Your task to perform on an android device: View the shopping cart on newegg. Search for "razer deathadder" on newegg, select the first entry, and add it to the cart. Image 0: 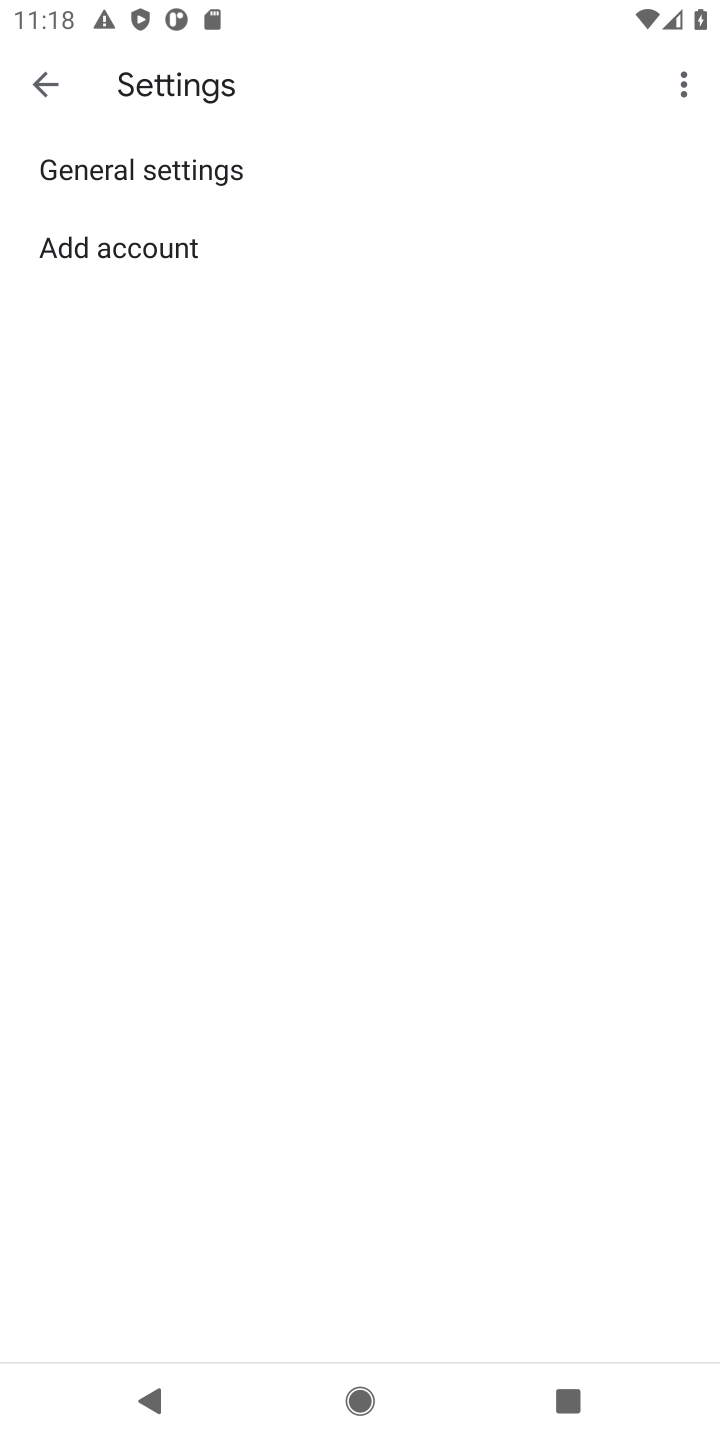
Step 0: press home button
Your task to perform on an android device: View the shopping cart on newegg. Search for "razer deathadder" on newegg, select the first entry, and add it to the cart. Image 1: 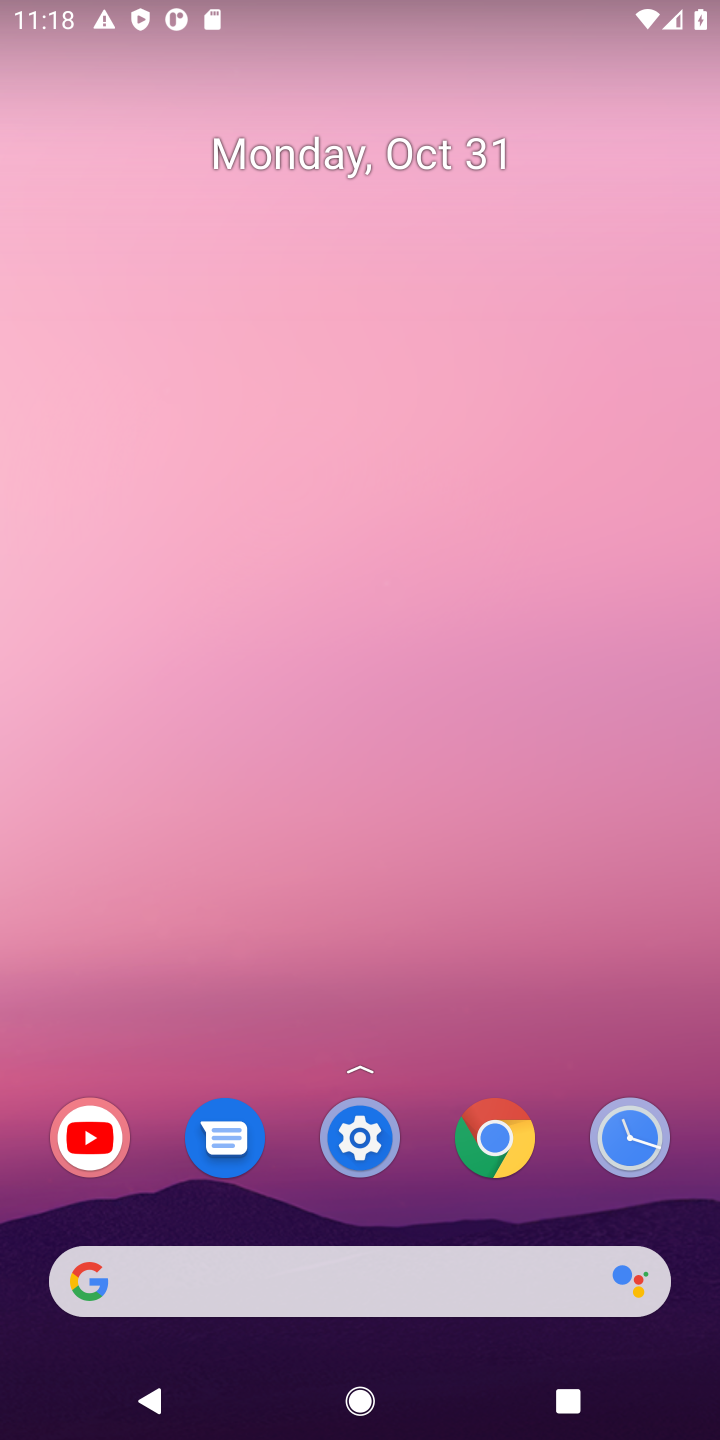
Step 1: click (508, 1138)
Your task to perform on an android device: View the shopping cart on newegg. Search for "razer deathadder" on newegg, select the first entry, and add it to the cart. Image 2: 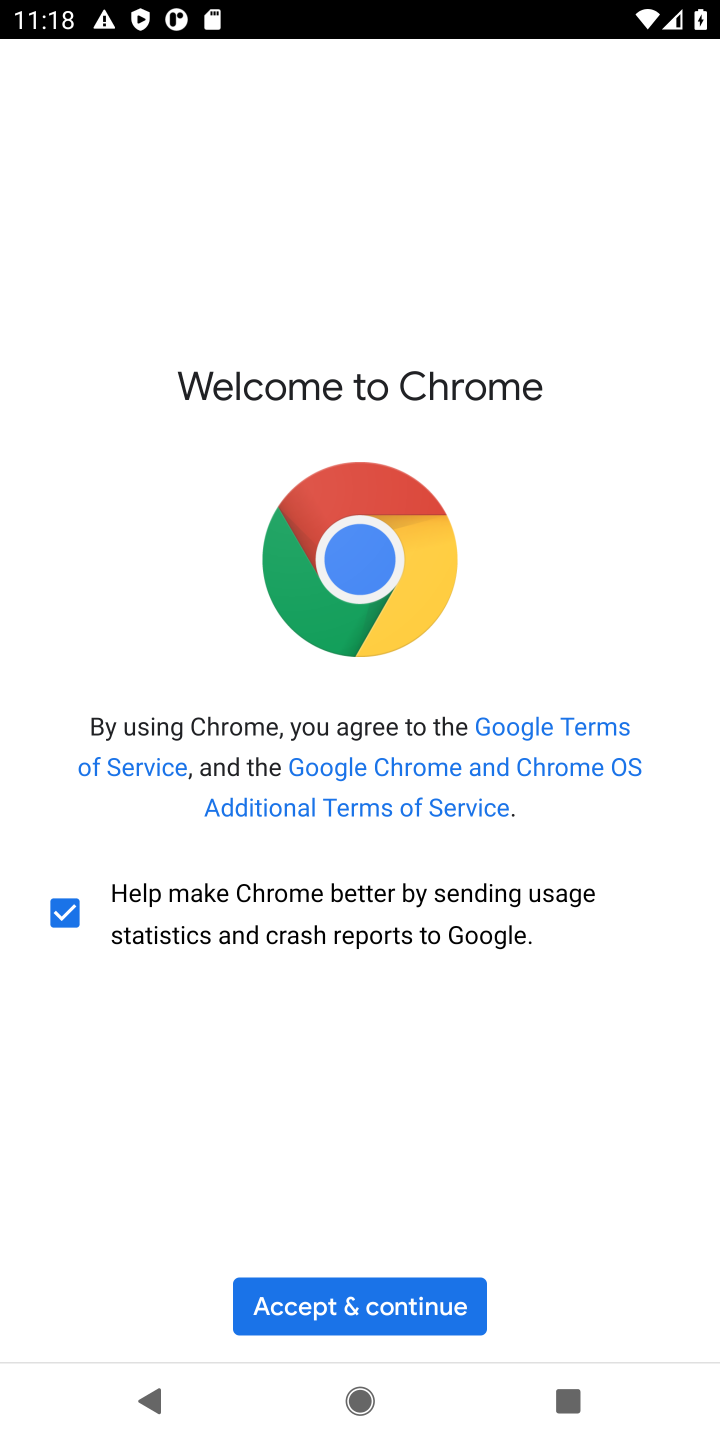
Step 2: click (410, 1312)
Your task to perform on an android device: View the shopping cart on newegg. Search for "razer deathadder" on newegg, select the first entry, and add it to the cart. Image 3: 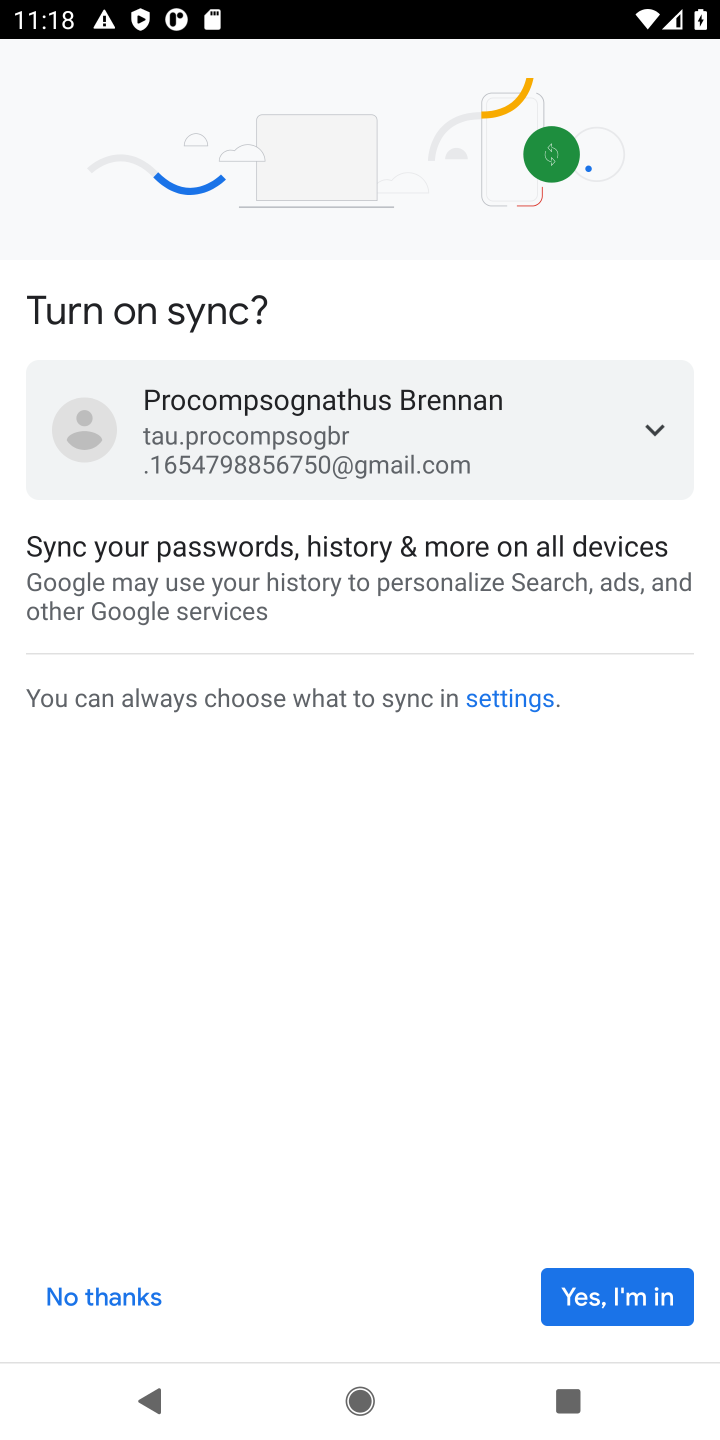
Step 3: click (623, 1296)
Your task to perform on an android device: View the shopping cart on newegg. Search for "razer deathadder" on newegg, select the first entry, and add it to the cart. Image 4: 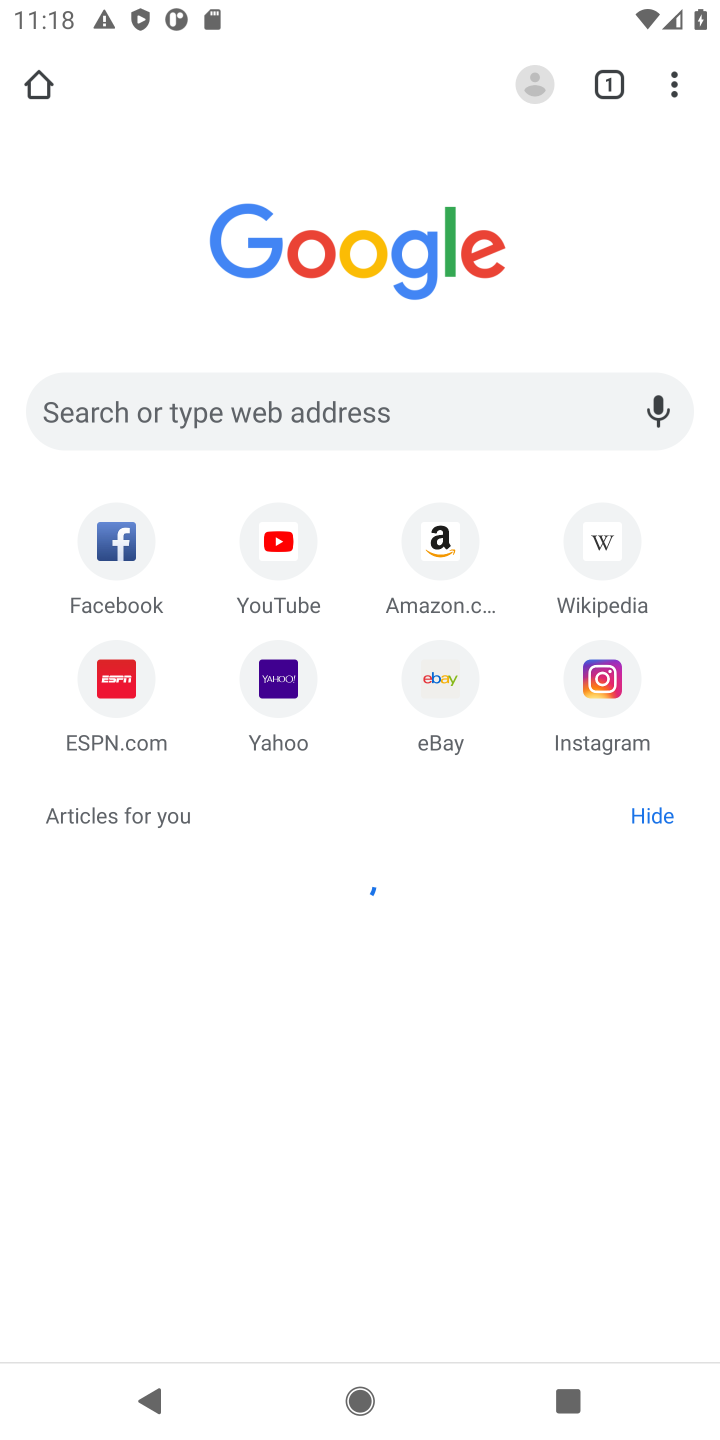
Step 4: click (459, 392)
Your task to perform on an android device: View the shopping cart on newegg. Search for "razer deathadder" on newegg, select the first entry, and add it to the cart. Image 5: 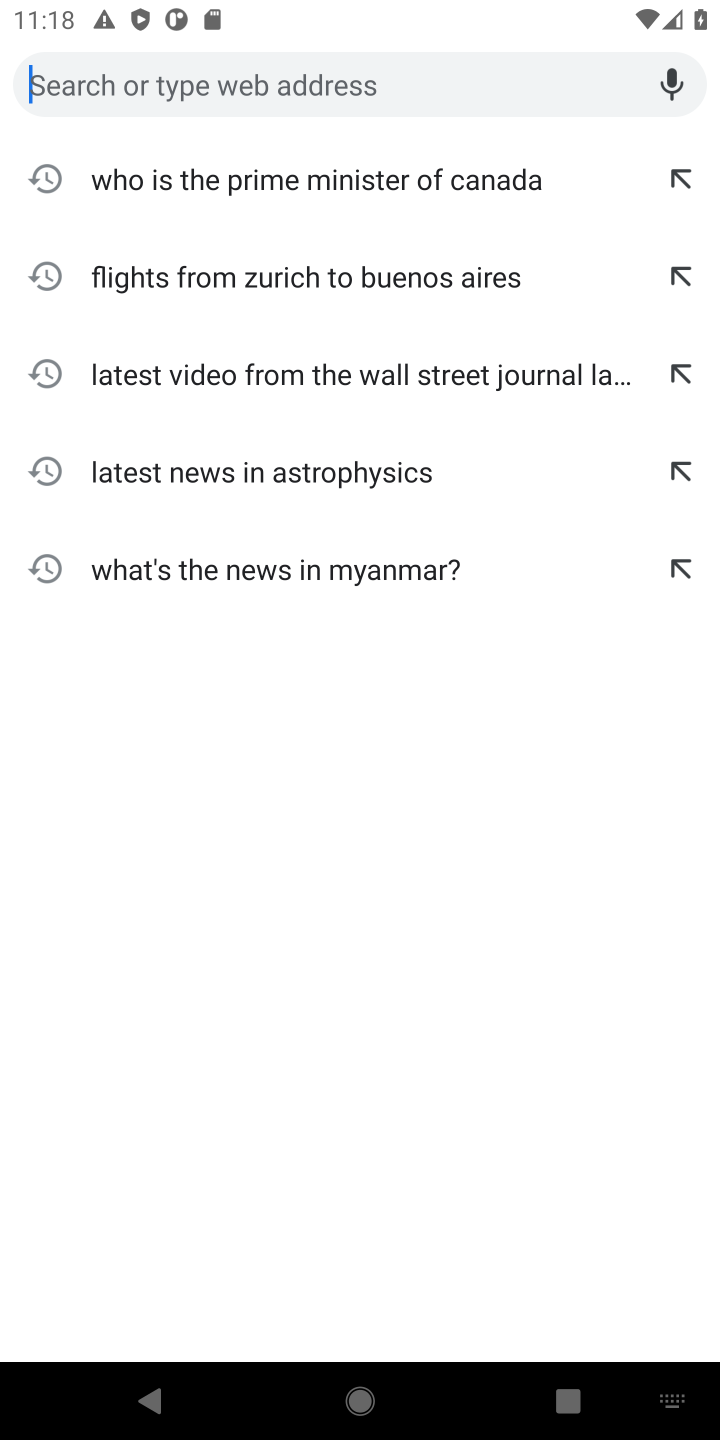
Step 5: press enter
Your task to perform on an android device: View the shopping cart on newegg. Search for "razer deathadder" on newegg, select the first entry, and add it to the cart. Image 6: 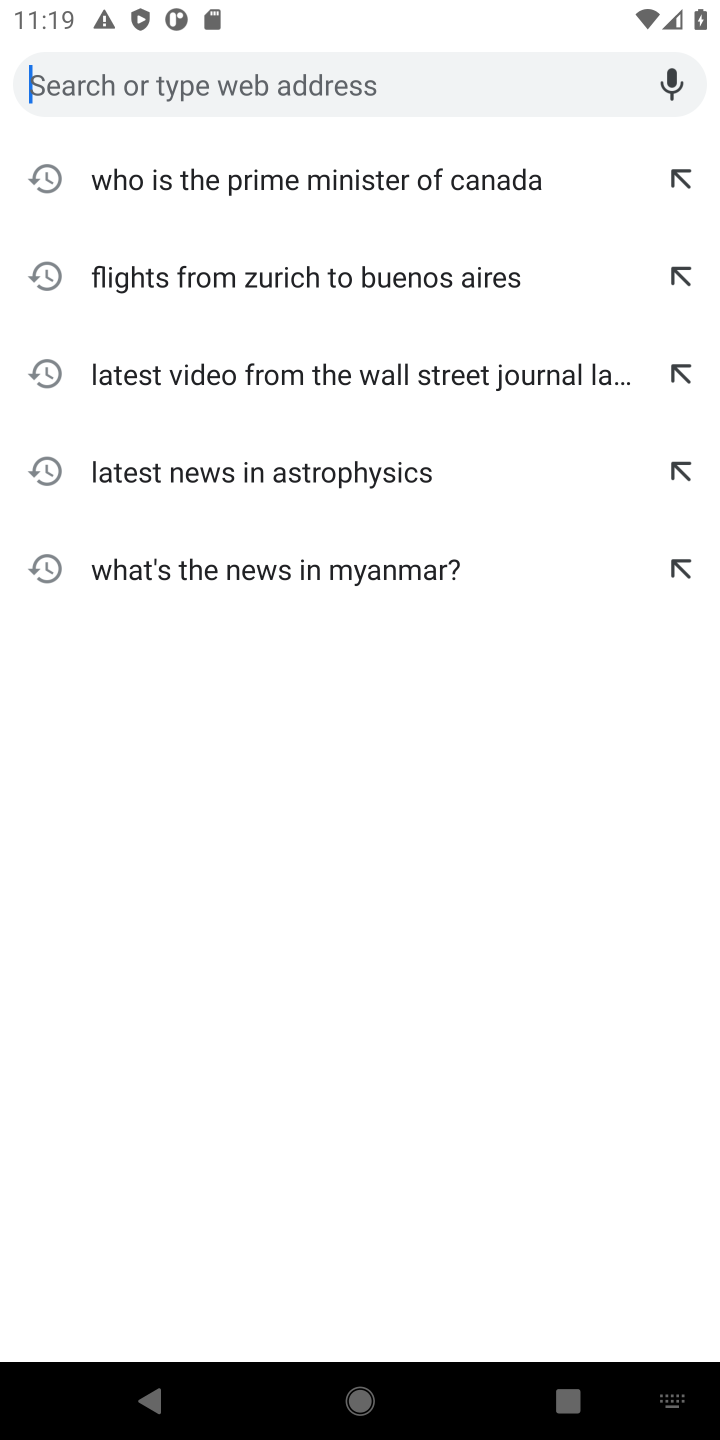
Step 6: type "newegg"
Your task to perform on an android device: View the shopping cart on newegg. Search for "razer deathadder" on newegg, select the first entry, and add it to the cart. Image 7: 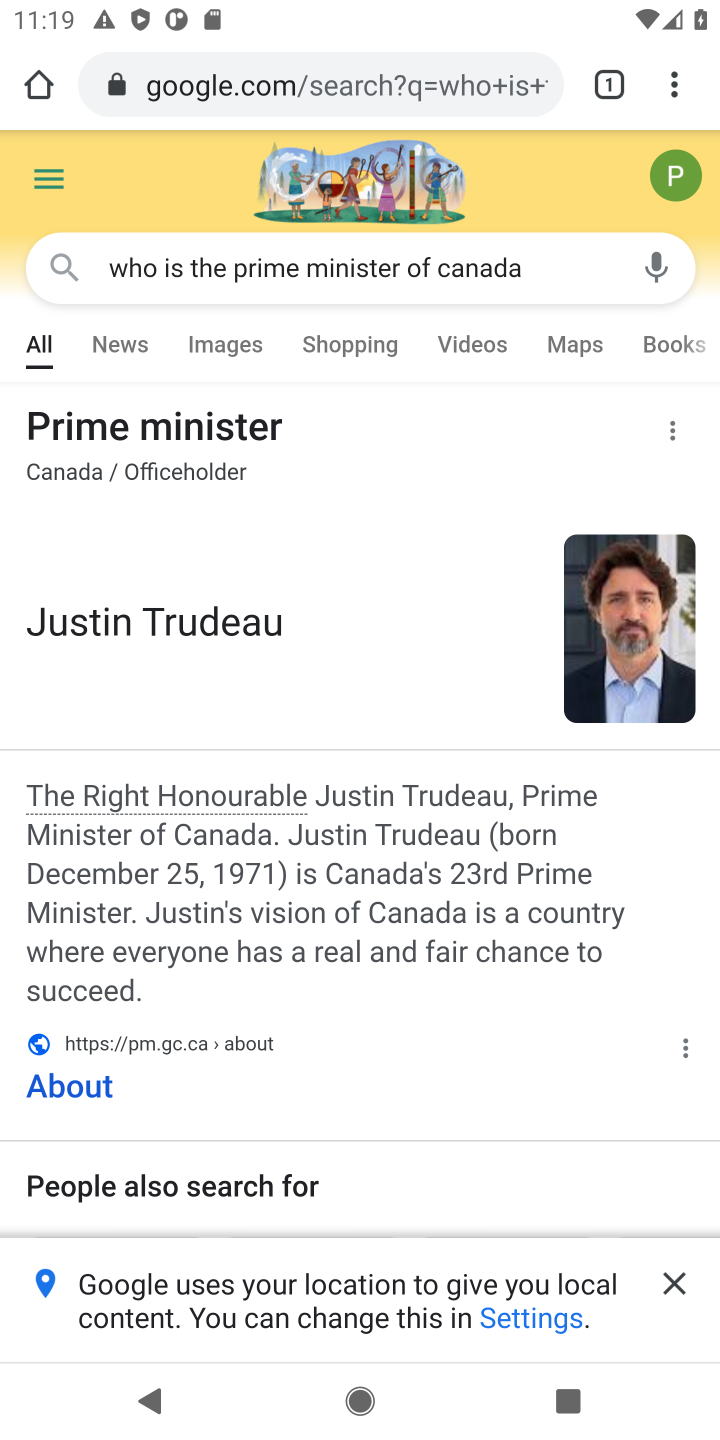
Step 7: click (414, 83)
Your task to perform on an android device: View the shopping cart on newegg. Search for "razer deathadder" on newegg, select the first entry, and add it to the cart. Image 8: 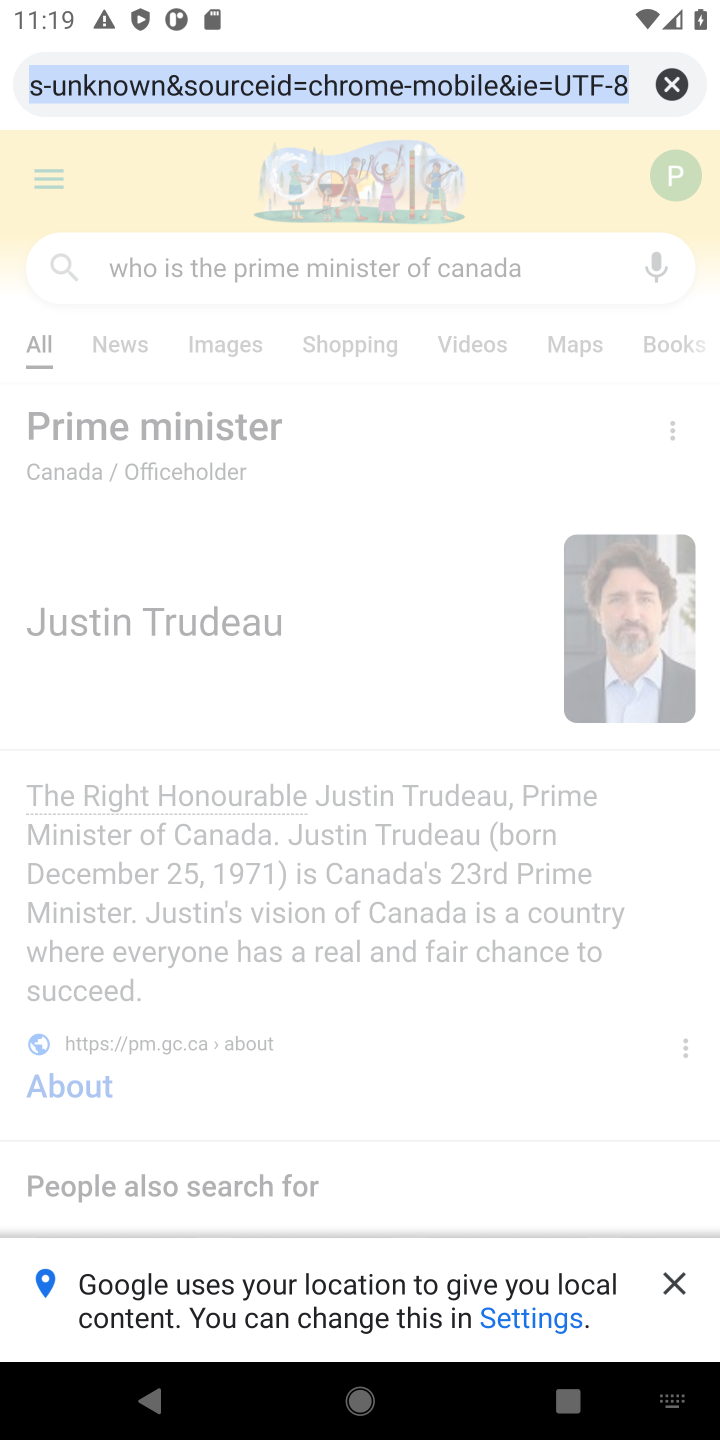
Step 8: click (666, 88)
Your task to perform on an android device: View the shopping cart on newegg. Search for "razer deathadder" on newegg, select the first entry, and add it to the cart. Image 9: 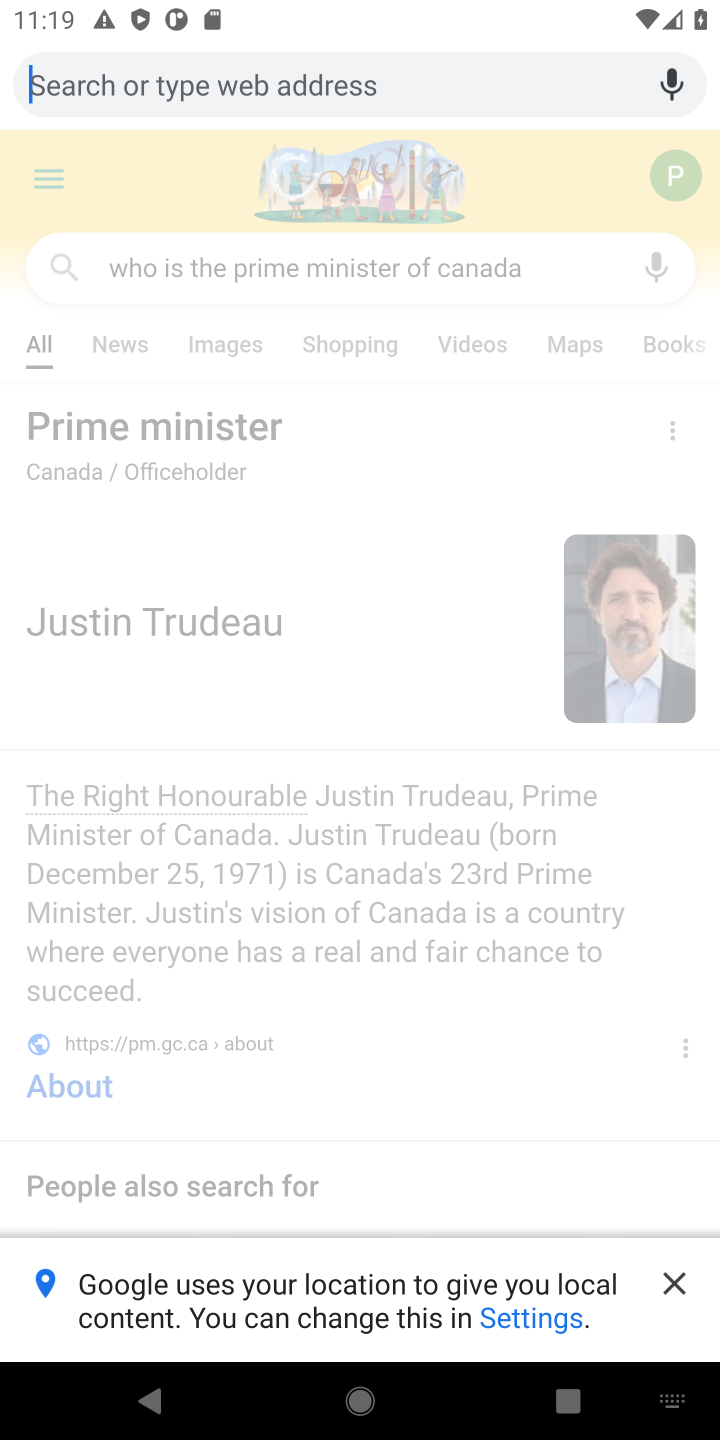
Step 9: type "newegg"
Your task to perform on an android device: View the shopping cart on newegg. Search for "razer deathadder" on newegg, select the first entry, and add it to the cart. Image 10: 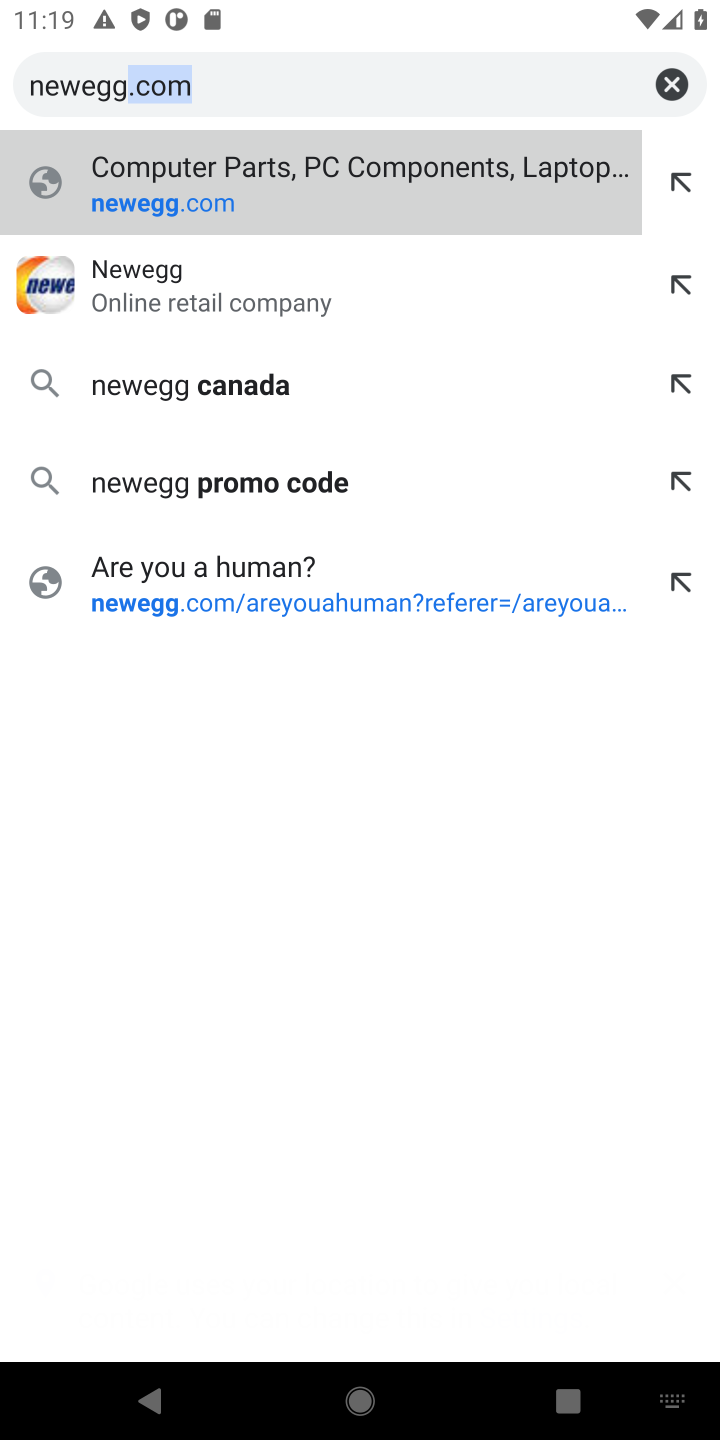
Step 10: press enter
Your task to perform on an android device: View the shopping cart on newegg. Search for "razer deathadder" on newegg, select the first entry, and add it to the cart. Image 11: 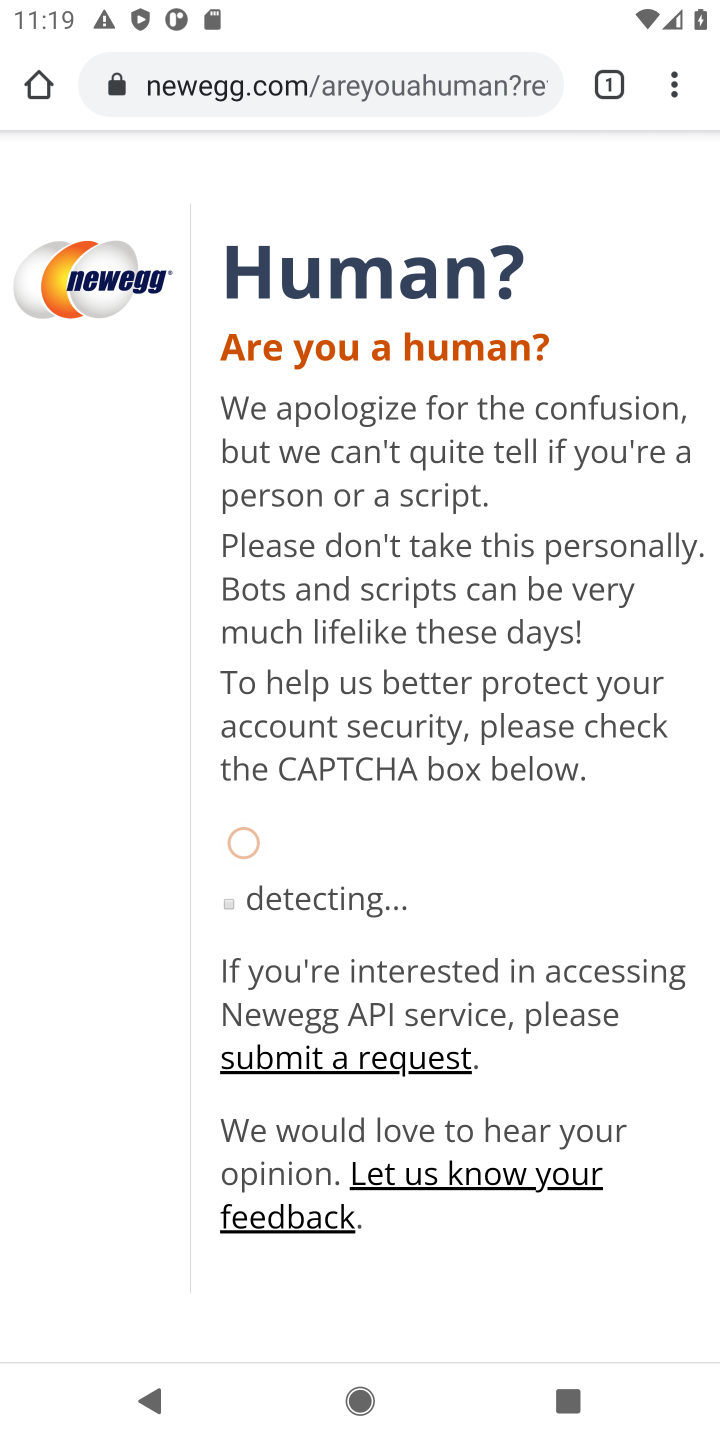
Step 11: click (268, 90)
Your task to perform on an android device: View the shopping cart on newegg. Search for "razer deathadder" on newegg, select the first entry, and add it to the cart. Image 12: 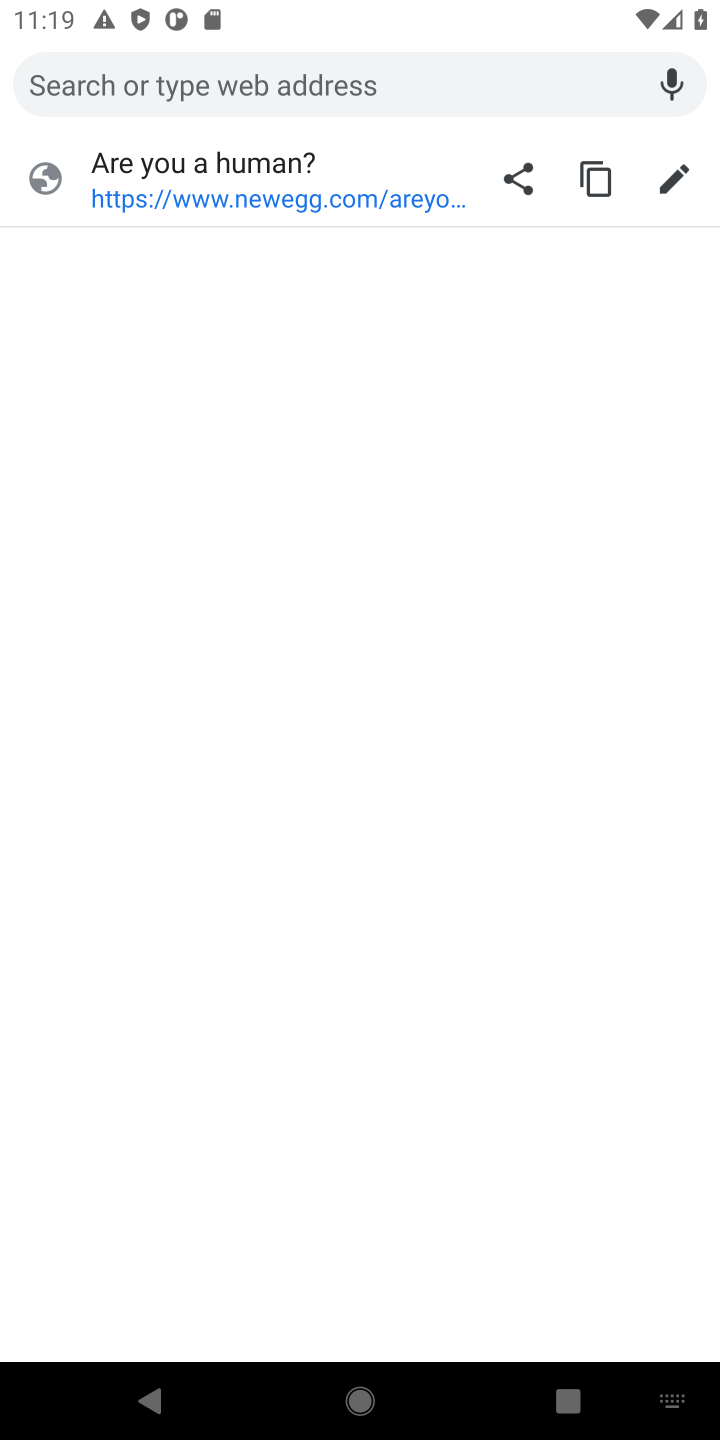
Step 12: press enter
Your task to perform on an android device: View the shopping cart on newegg. Search for "razer deathadder" on newegg, select the first entry, and add it to the cart. Image 13: 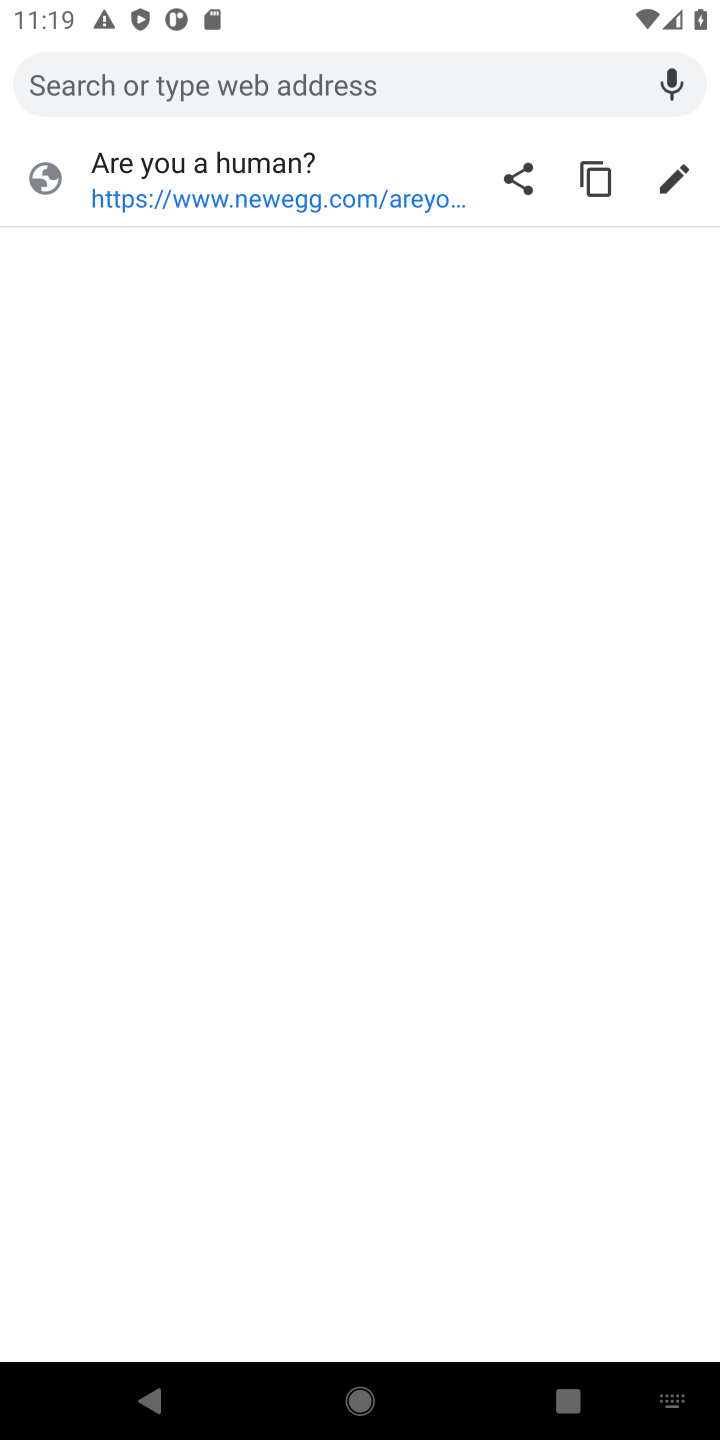
Step 13: type "newegg"
Your task to perform on an android device: View the shopping cart on newegg. Search for "razer deathadder" on newegg, select the first entry, and add it to the cart. Image 14: 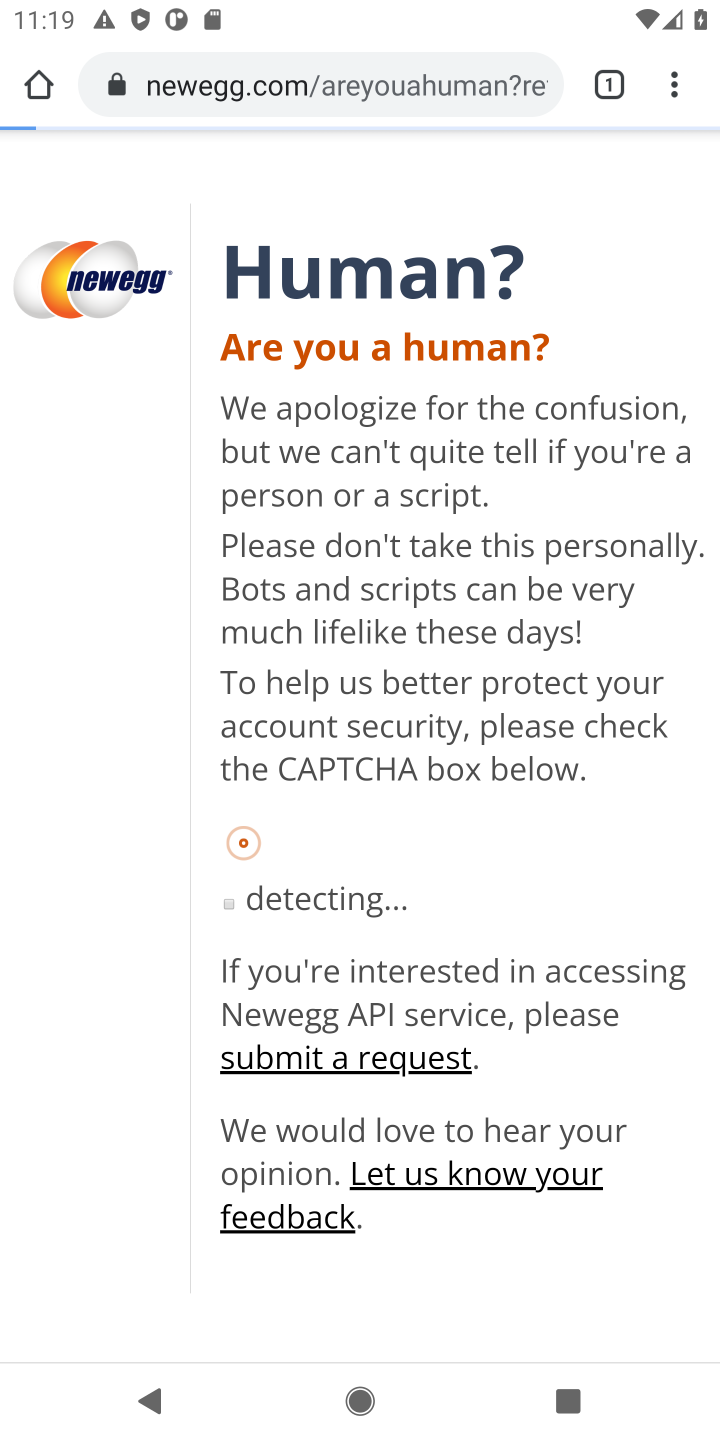
Step 14: click (48, 85)
Your task to perform on an android device: View the shopping cart on newegg. Search for "razer deathadder" on newegg, select the first entry, and add it to the cart. Image 15: 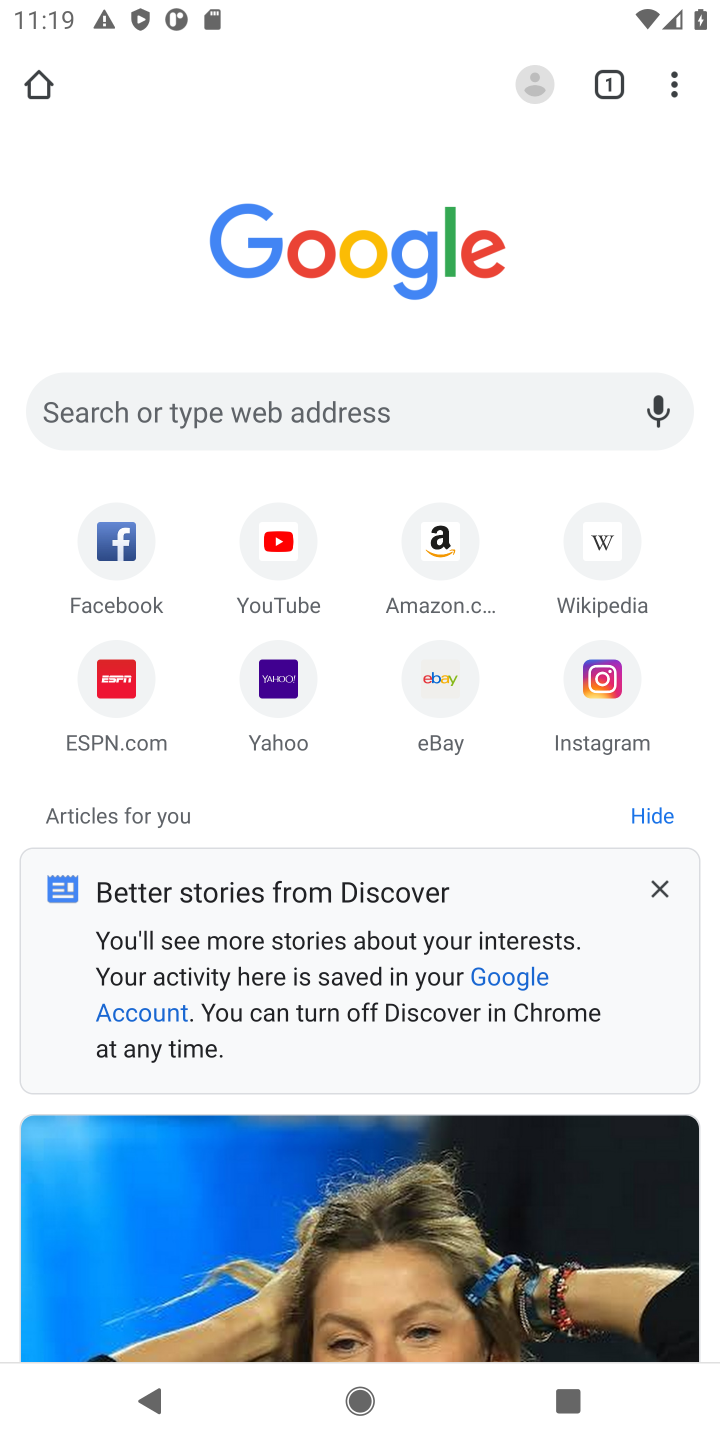
Step 15: click (430, 398)
Your task to perform on an android device: View the shopping cart on newegg. Search for "razer deathadder" on newegg, select the first entry, and add it to the cart. Image 16: 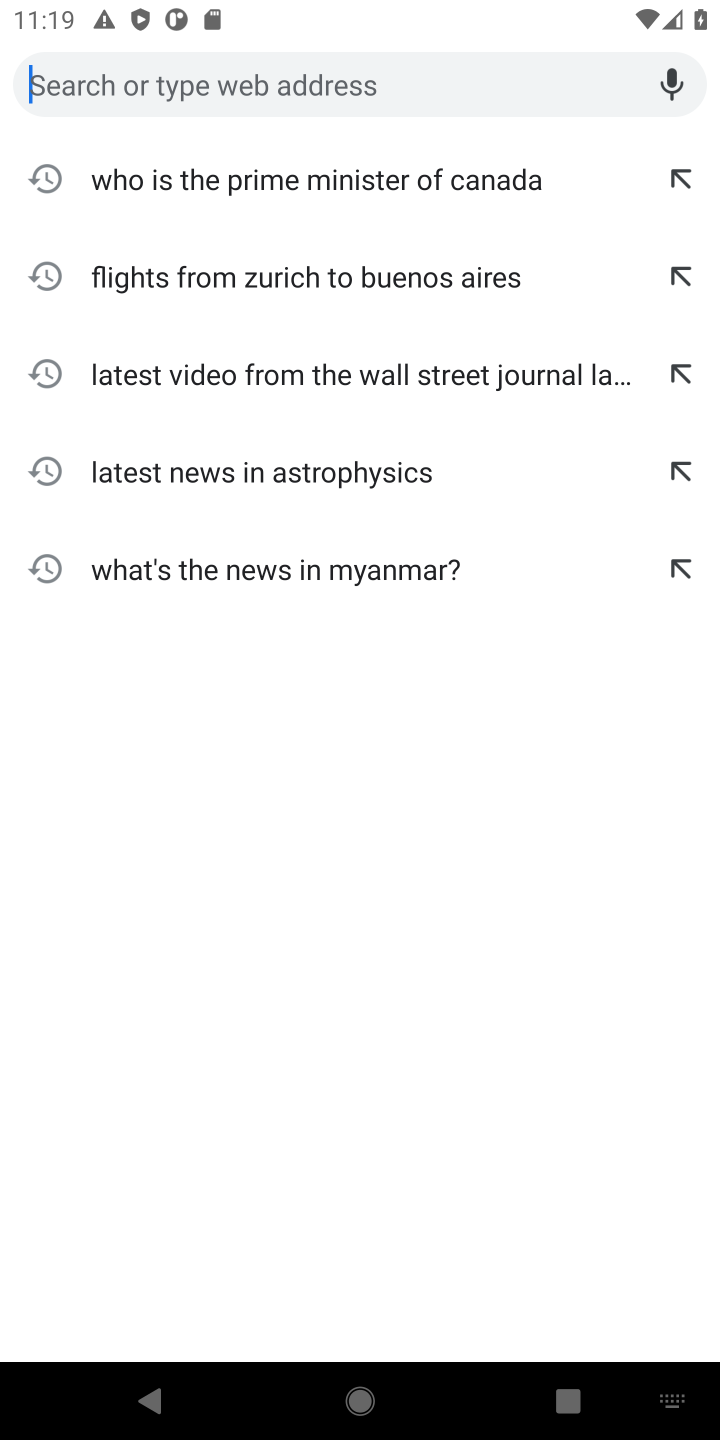
Step 16: type "newegg"
Your task to perform on an android device: View the shopping cart on newegg. Search for "razer deathadder" on newegg, select the first entry, and add it to the cart. Image 17: 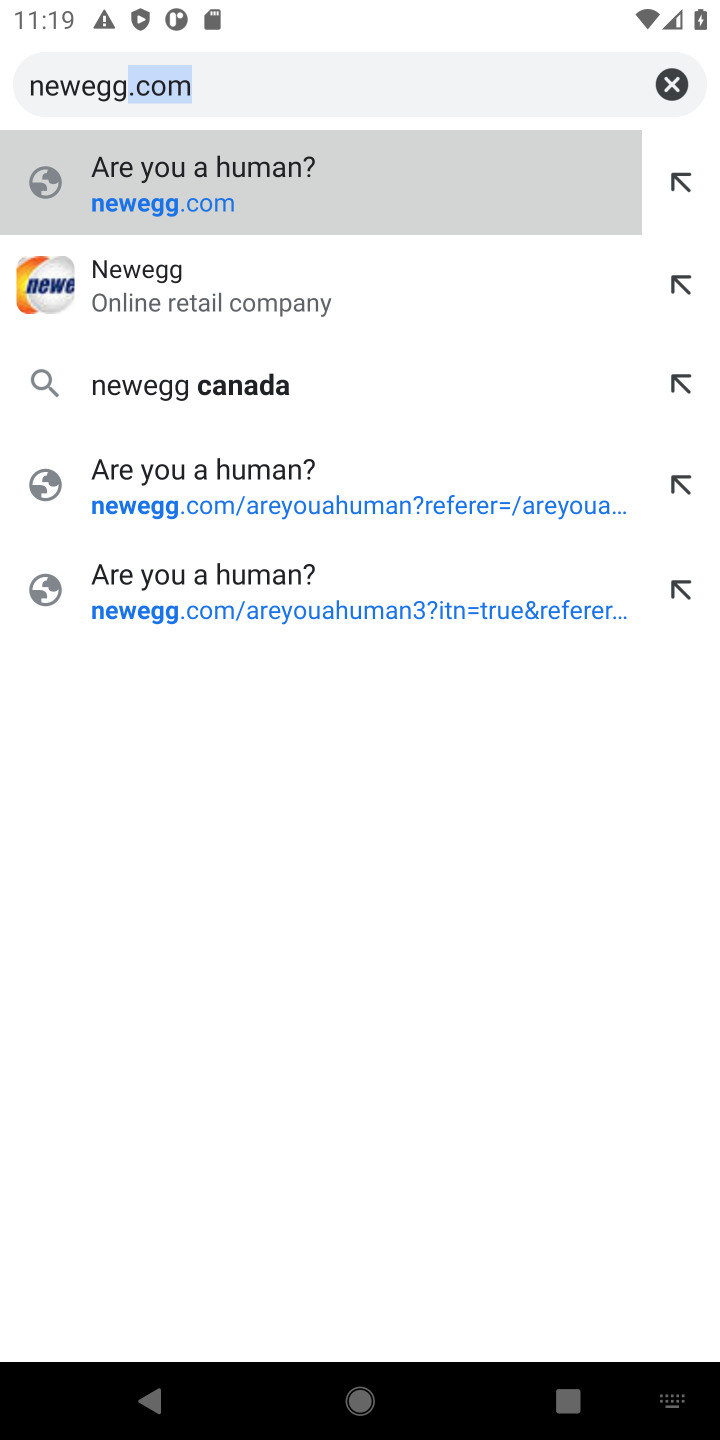
Step 17: press enter
Your task to perform on an android device: View the shopping cart on newegg. Search for "razer deathadder" on newegg, select the first entry, and add it to the cart. Image 18: 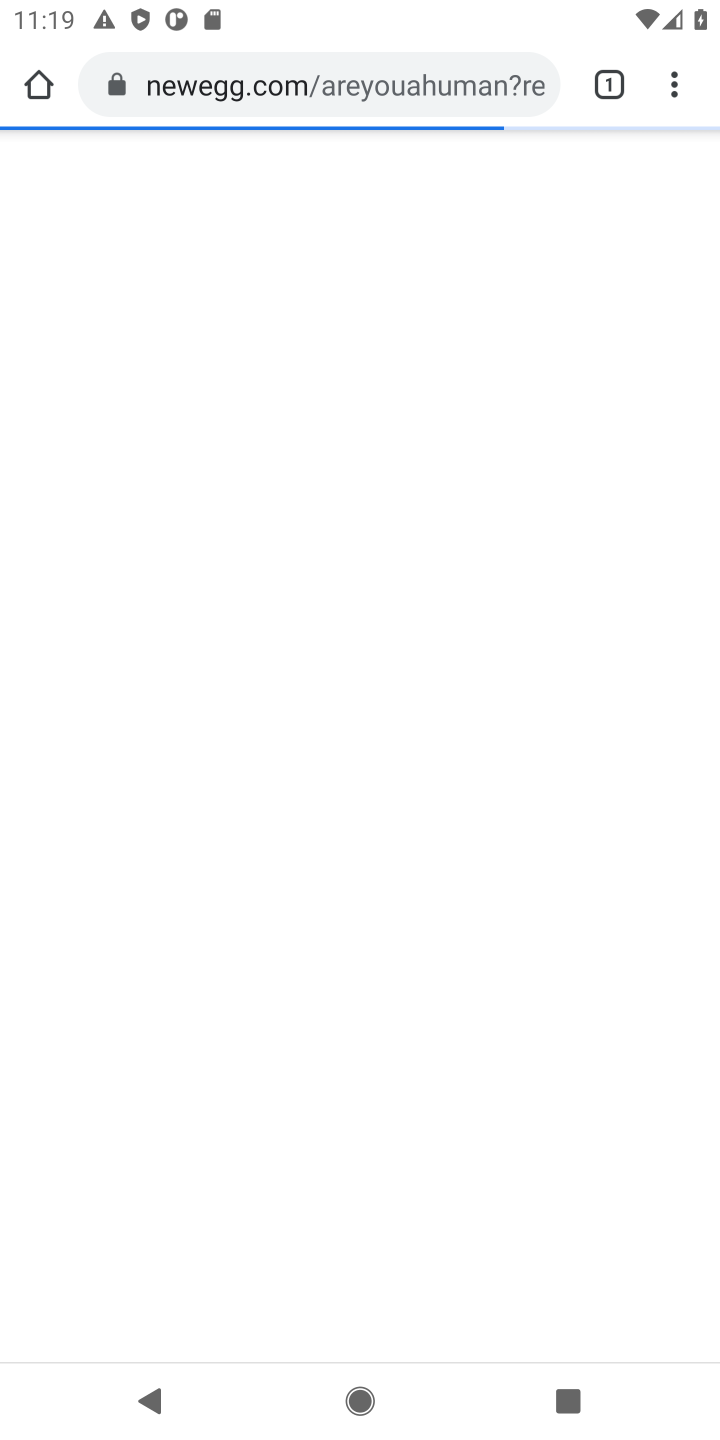
Step 18: click (175, 290)
Your task to perform on an android device: View the shopping cart on newegg. Search for "razer deathadder" on newegg, select the first entry, and add it to the cart. Image 19: 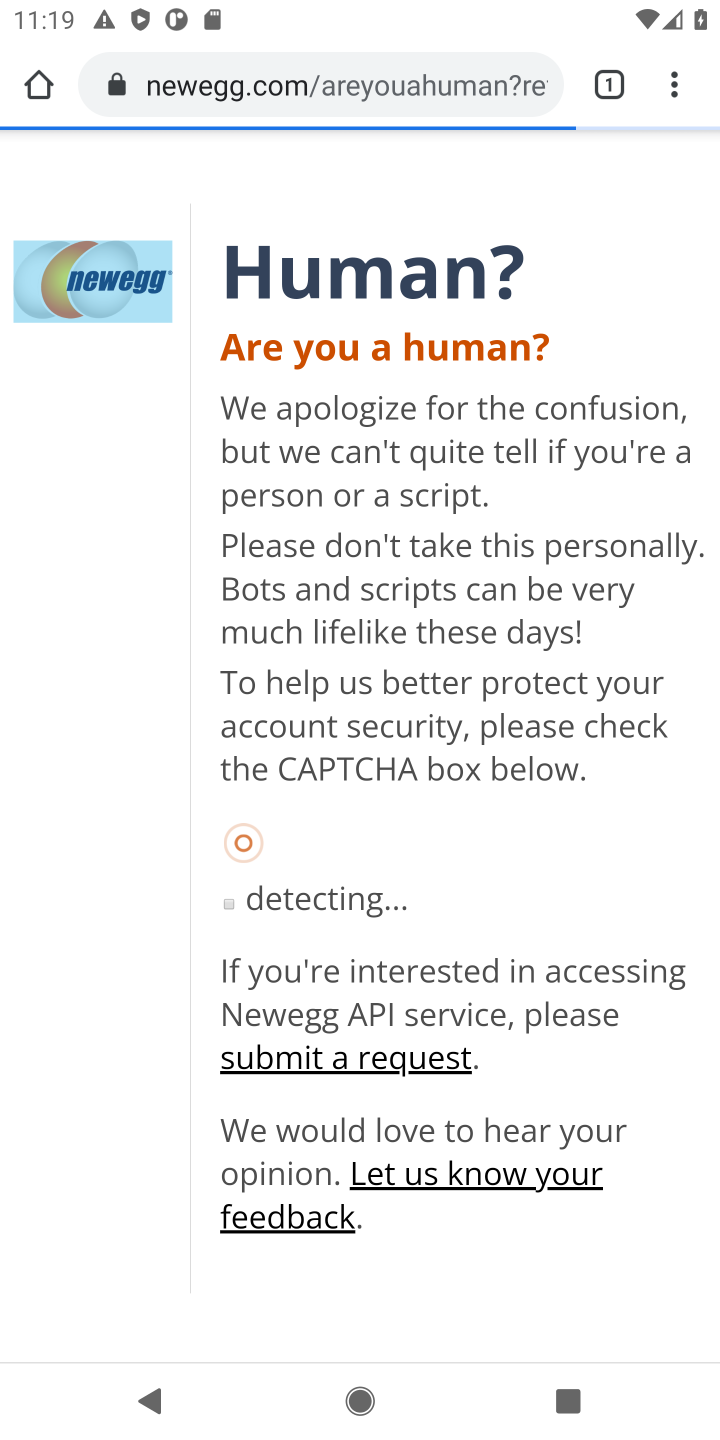
Step 19: drag from (382, 387) to (408, 236)
Your task to perform on an android device: View the shopping cart on newegg. Search for "razer deathadder" on newegg, select the first entry, and add it to the cart. Image 20: 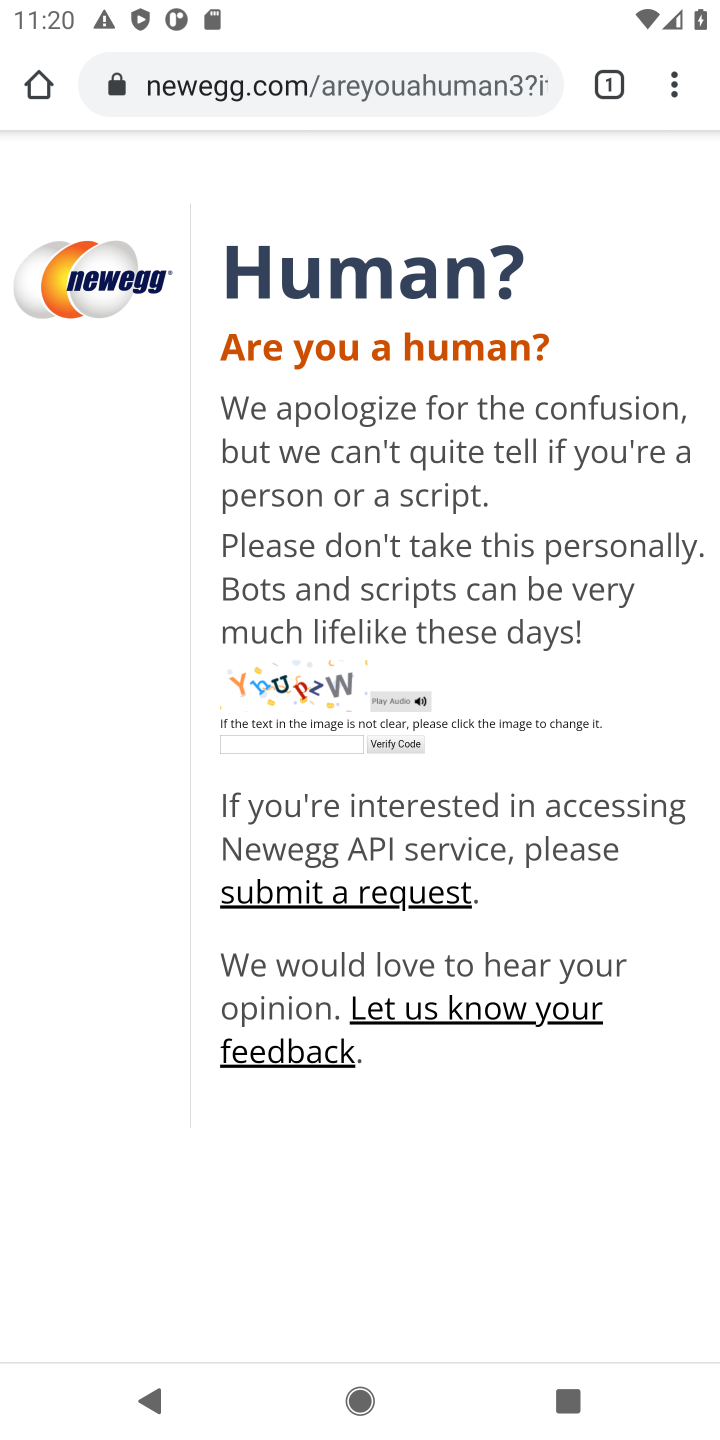
Step 20: click (456, 88)
Your task to perform on an android device: View the shopping cart on newegg. Search for "razer deathadder" on newegg, select the first entry, and add it to the cart. Image 21: 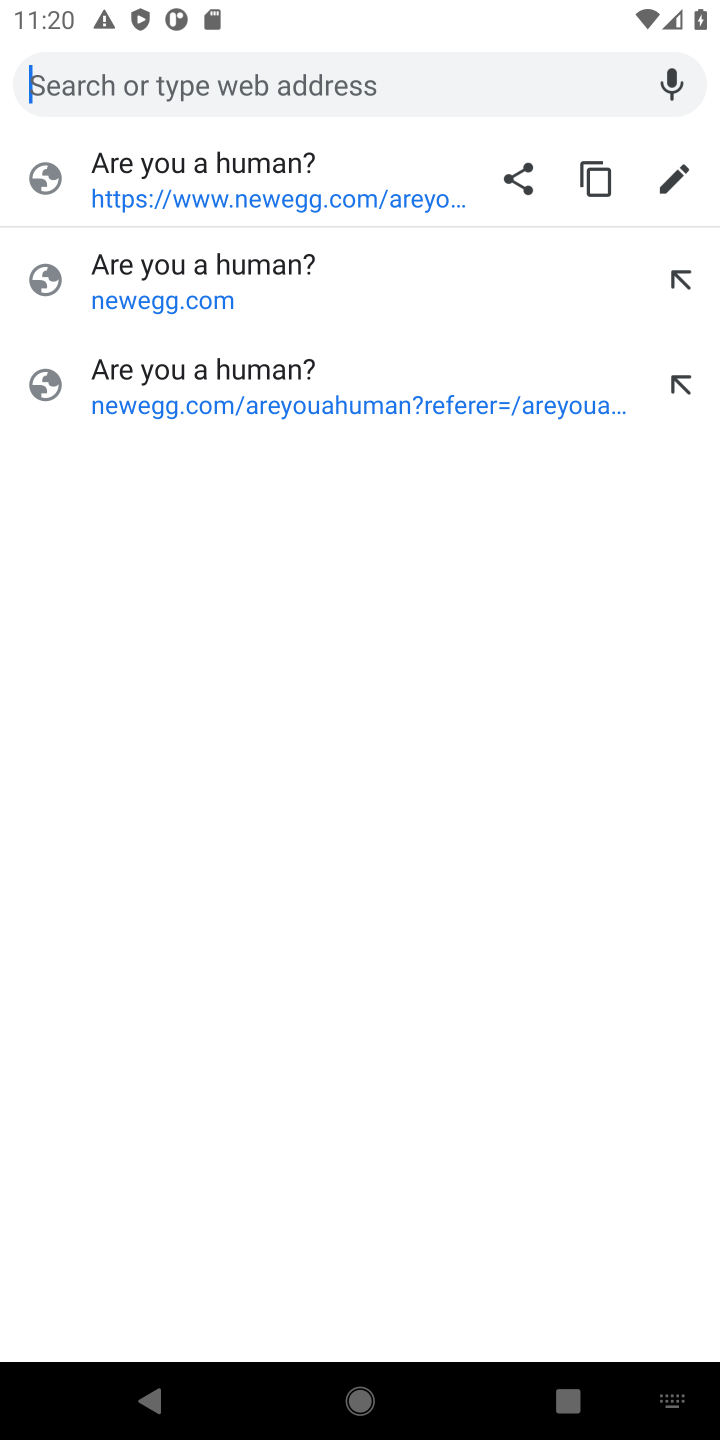
Step 21: type "newegg"
Your task to perform on an android device: View the shopping cart on newegg. Search for "razer deathadder" on newegg, select the first entry, and add it to the cart. Image 22: 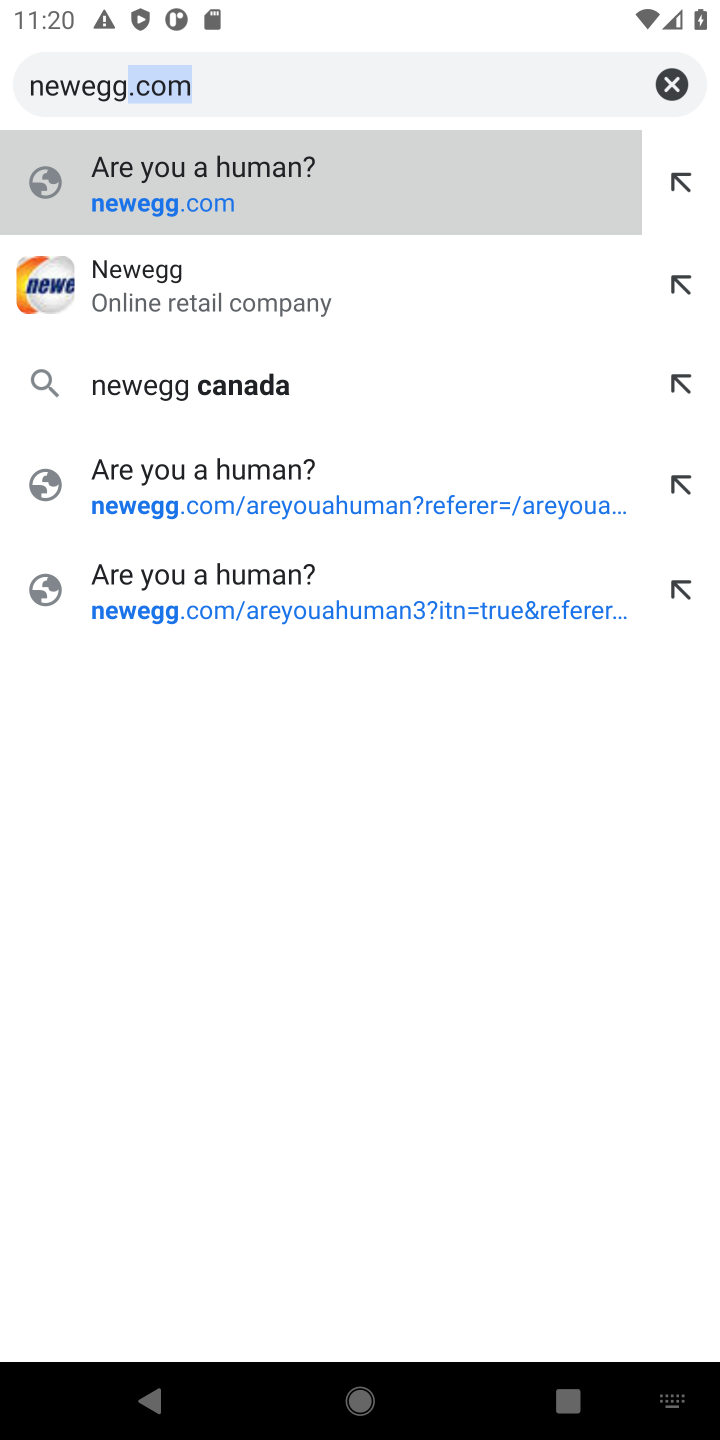
Step 22: press enter
Your task to perform on an android device: View the shopping cart on newegg. Search for "razer deathadder" on newegg, select the first entry, and add it to the cart. Image 23: 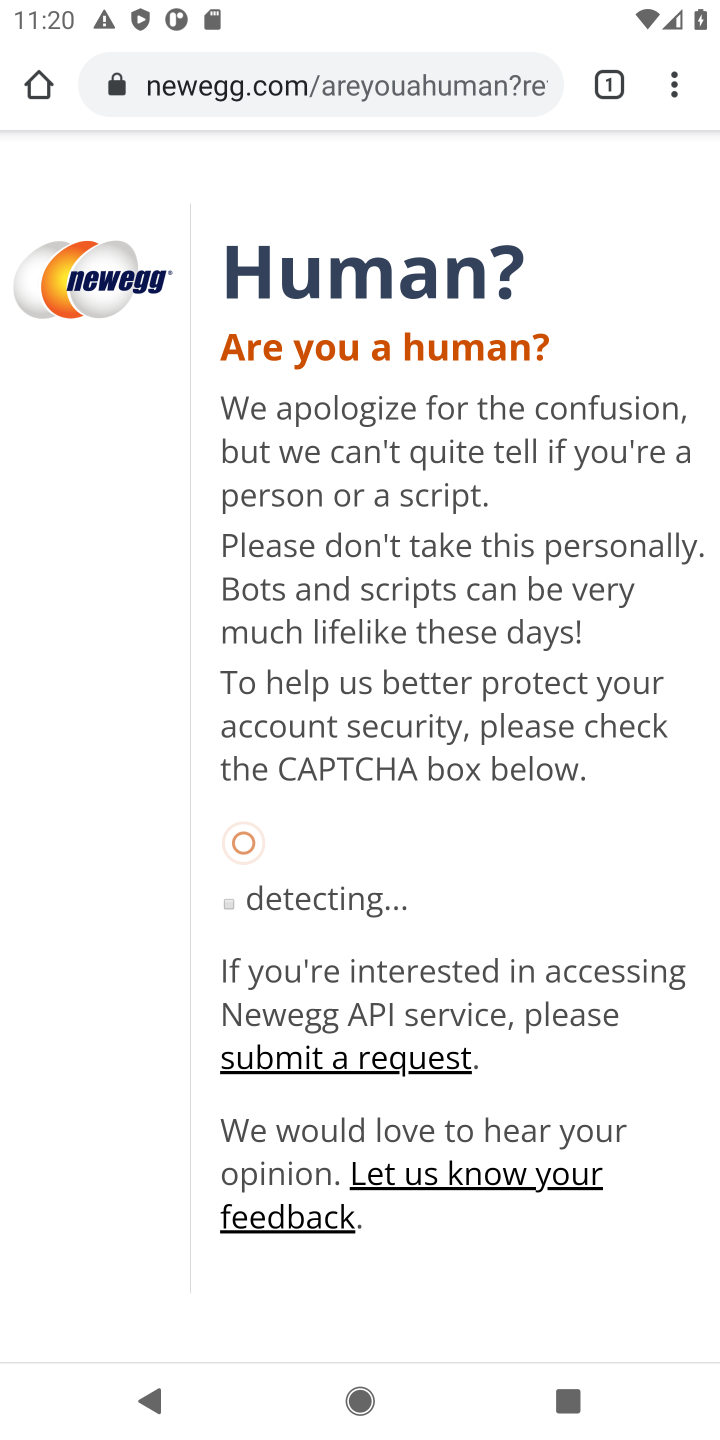
Step 23: click (422, 88)
Your task to perform on an android device: View the shopping cart on newegg. Search for "razer deathadder" on newegg, select the first entry, and add it to the cart. Image 24: 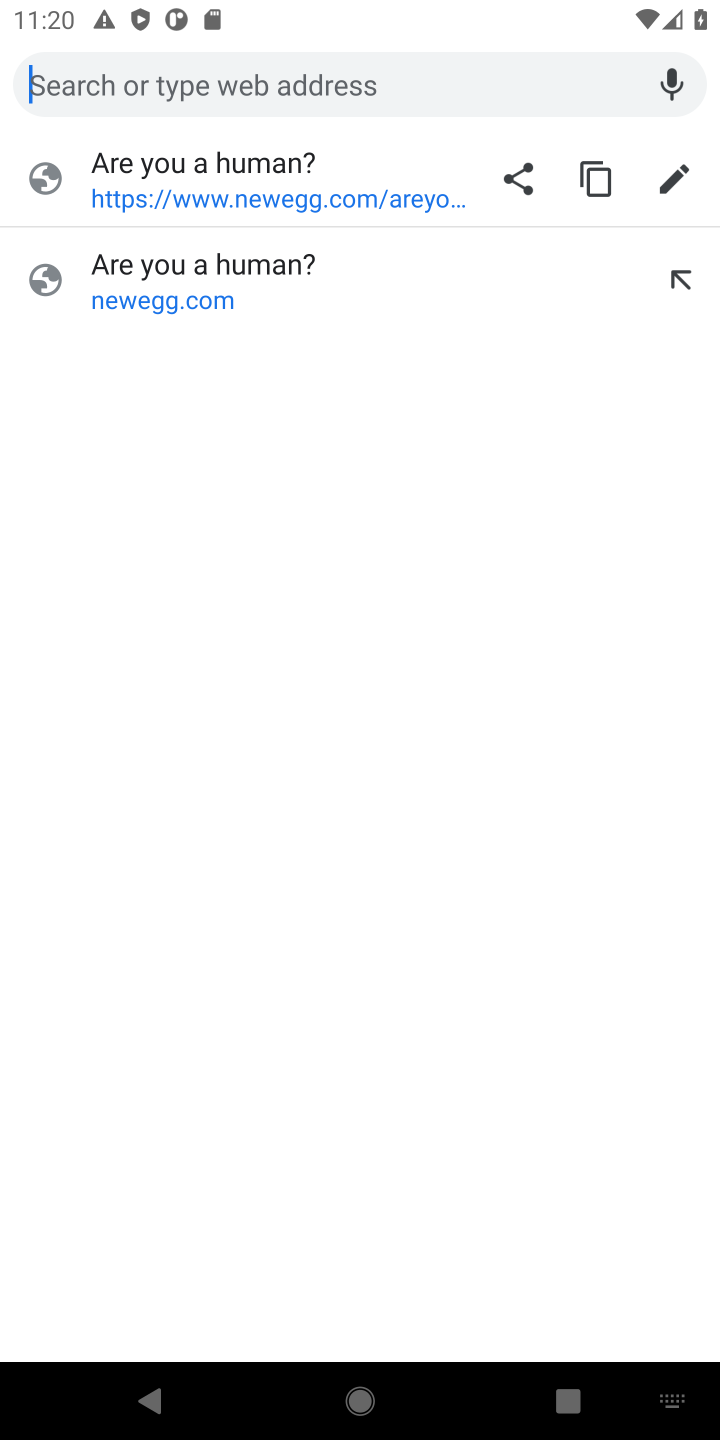
Step 24: type "newsegg"
Your task to perform on an android device: View the shopping cart on newegg. Search for "razer deathadder" on newegg, select the first entry, and add it to the cart. Image 25: 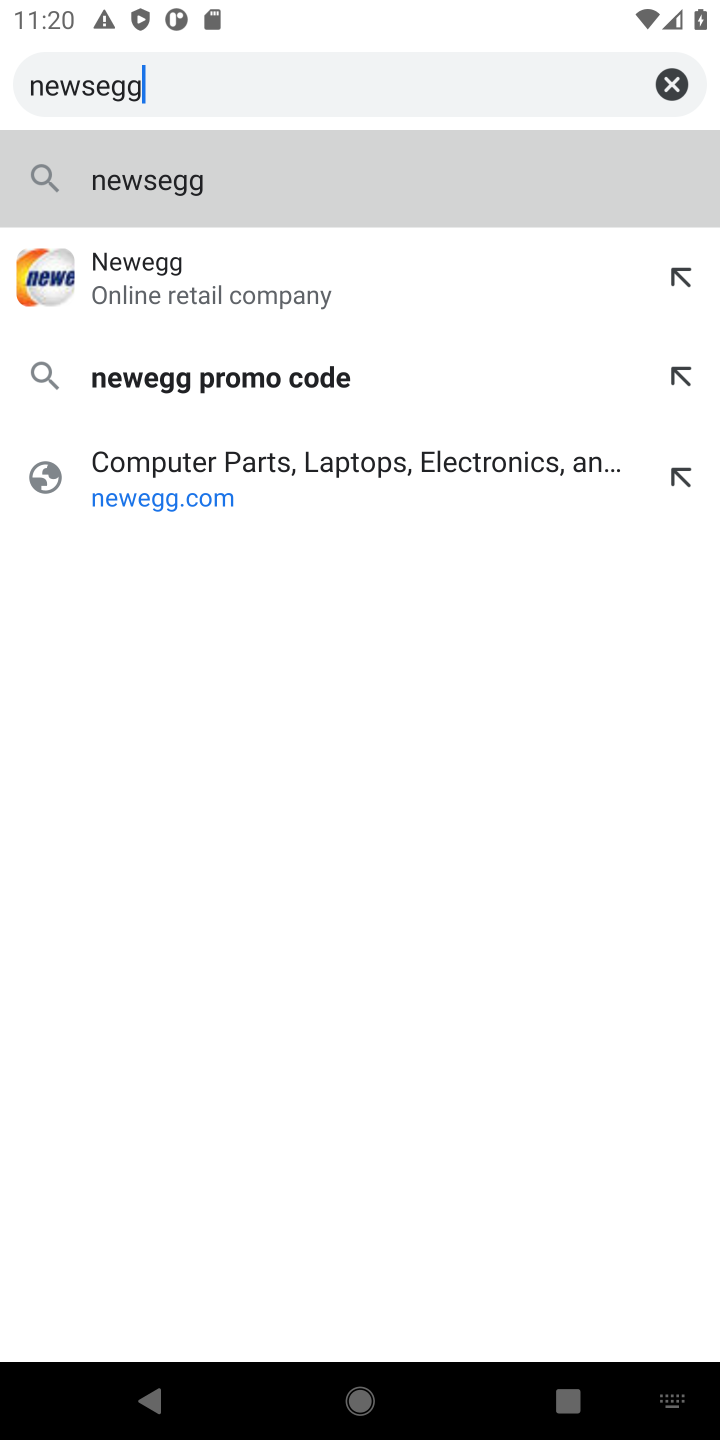
Step 25: click (210, 267)
Your task to perform on an android device: View the shopping cart on newegg. Search for "razer deathadder" on newegg, select the first entry, and add it to the cart. Image 26: 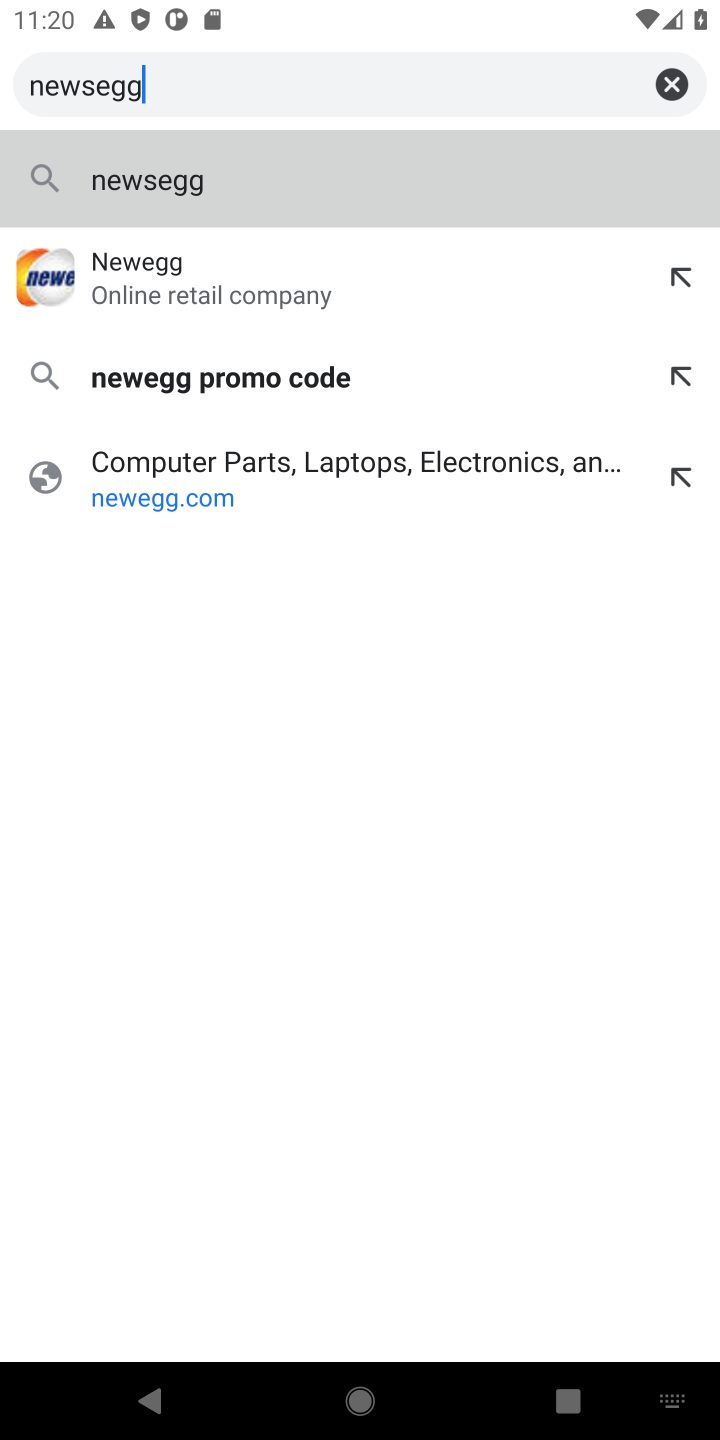
Step 26: click (144, 269)
Your task to perform on an android device: View the shopping cart on newegg. Search for "razer deathadder" on newegg, select the first entry, and add it to the cart. Image 27: 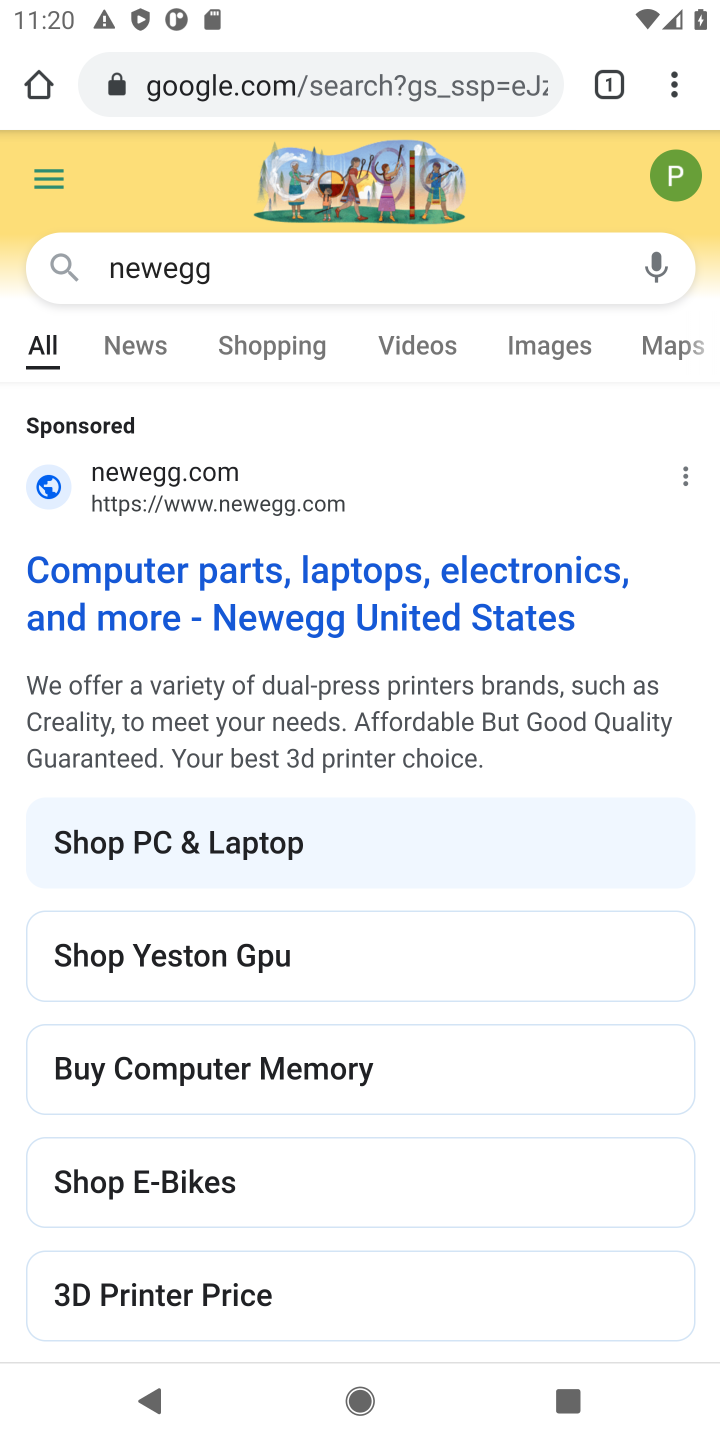
Step 27: drag from (384, 724) to (424, 219)
Your task to perform on an android device: View the shopping cart on newegg. Search for "razer deathadder" on newegg, select the first entry, and add it to the cart. Image 28: 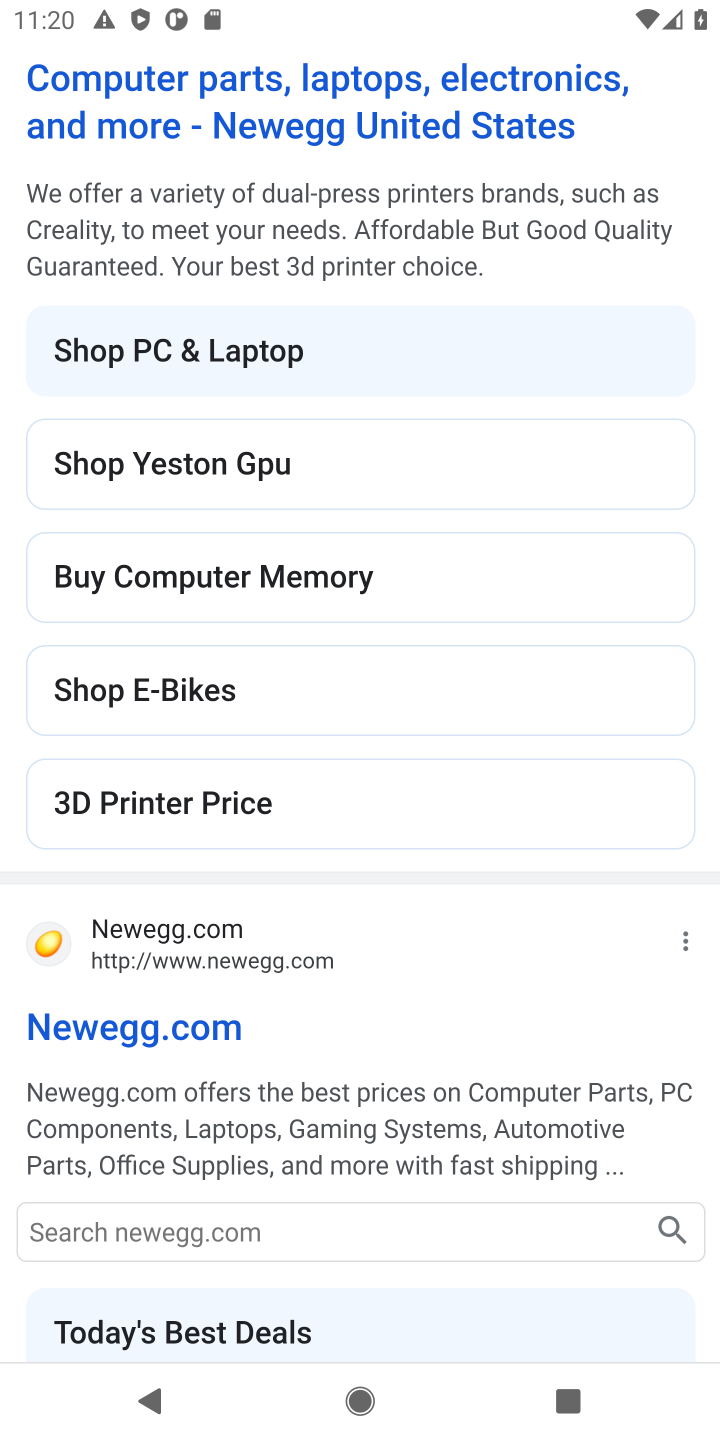
Step 28: click (203, 1025)
Your task to perform on an android device: View the shopping cart on newegg. Search for "razer deathadder" on newegg, select the first entry, and add it to the cart. Image 29: 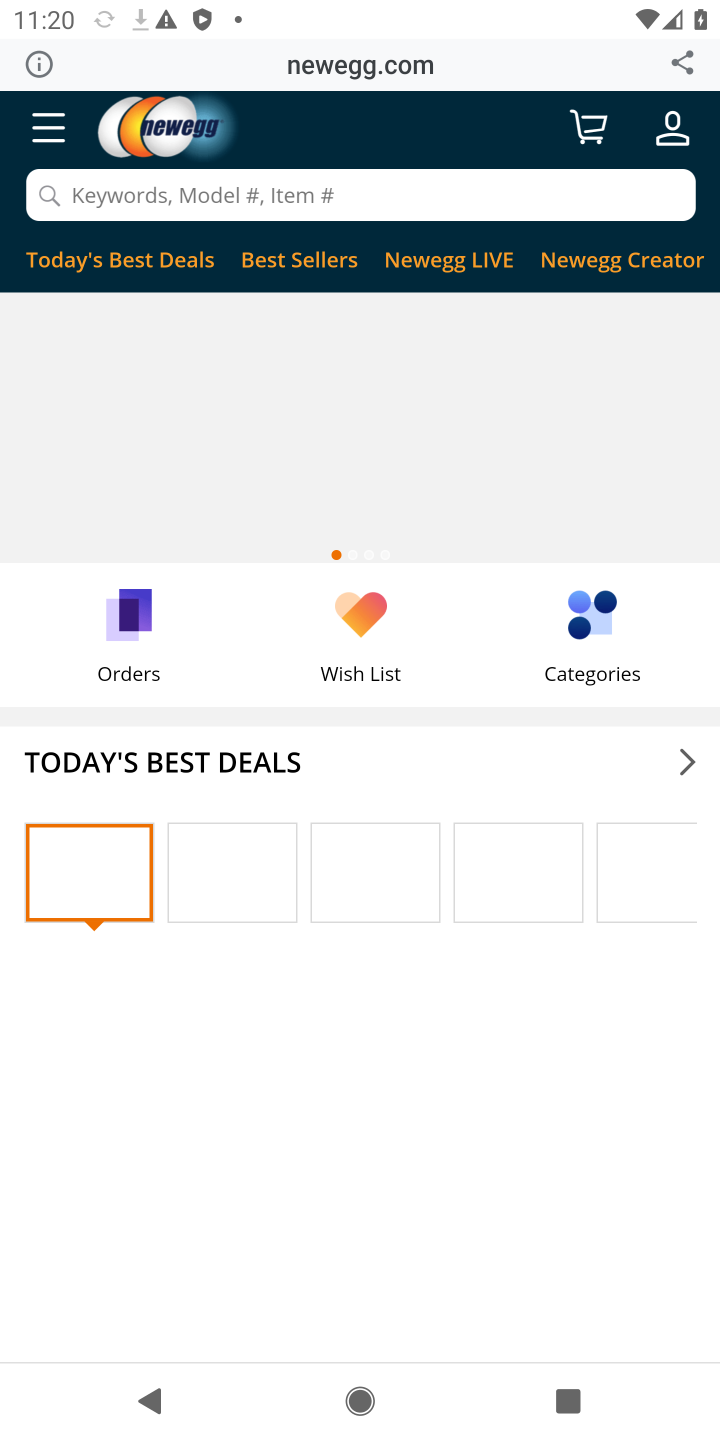
Step 29: click (510, 183)
Your task to perform on an android device: View the shopping cart on newegg. Search for "razer deathadder" on newegg, select the first entry, and add it to the cart. Image 30: 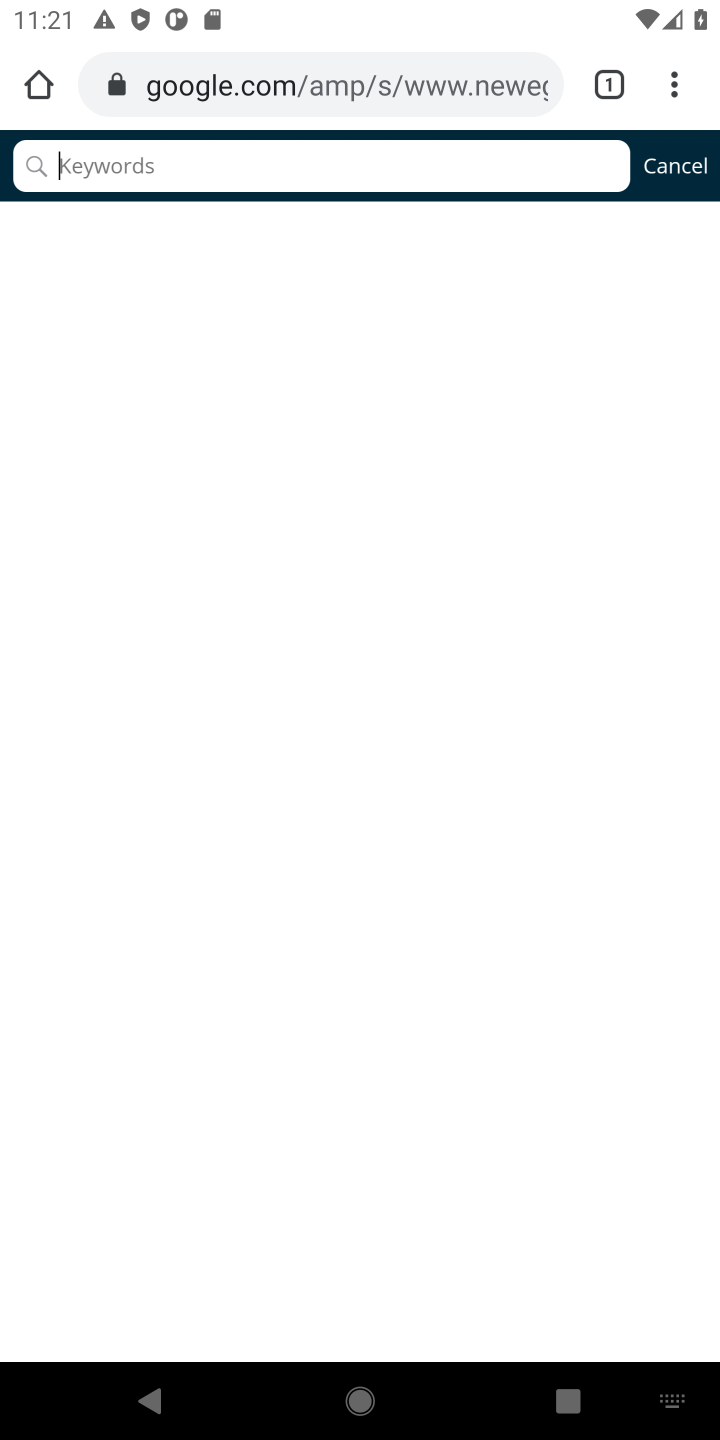
Step 30: type "razer deathadder"
Your task to perform on an android device: View the shopping cart on newegg. Search for "razer deathadder" on newegg, select the first entry, and add it to the cart. Image 31: 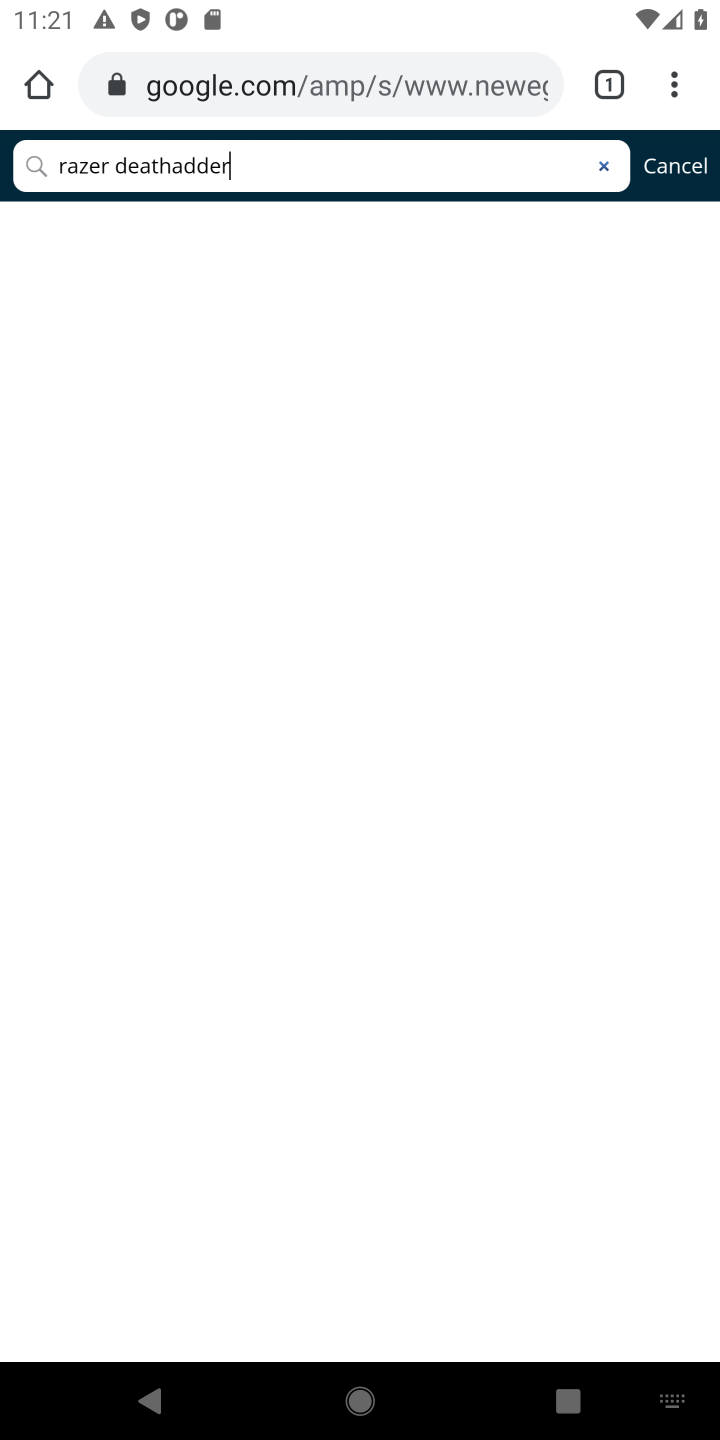
Step 31: click (510, 164)
Your task to perform on an android device: View the shopping cart on newegg. Search for "razer deathadder" on newegg, select the first entry, and add it to the cart. Image 32: 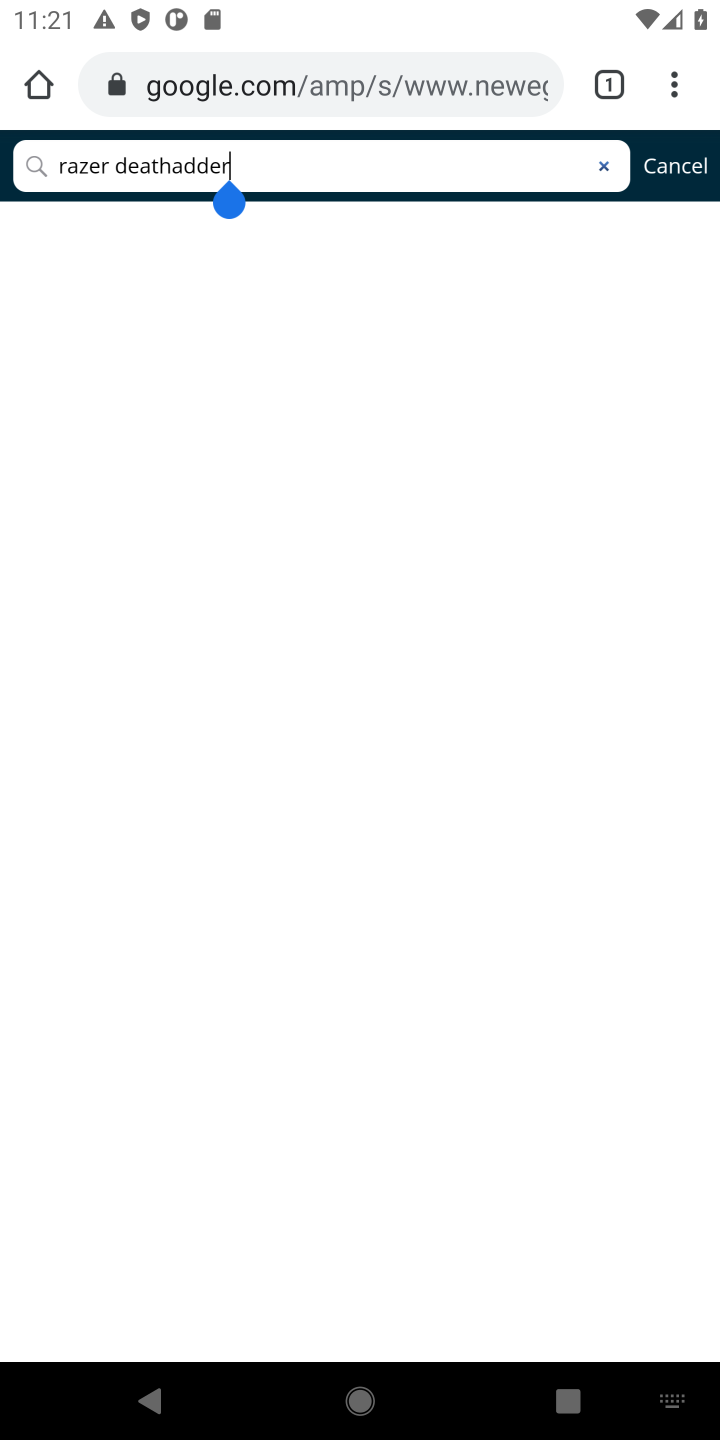
Step 32: click (584, 310)
Your task to perform on an android device: View the shopping cart on newegg. Search for "razer deathadder" on newegg, select the first entry, and add it to the cart. Image 33: 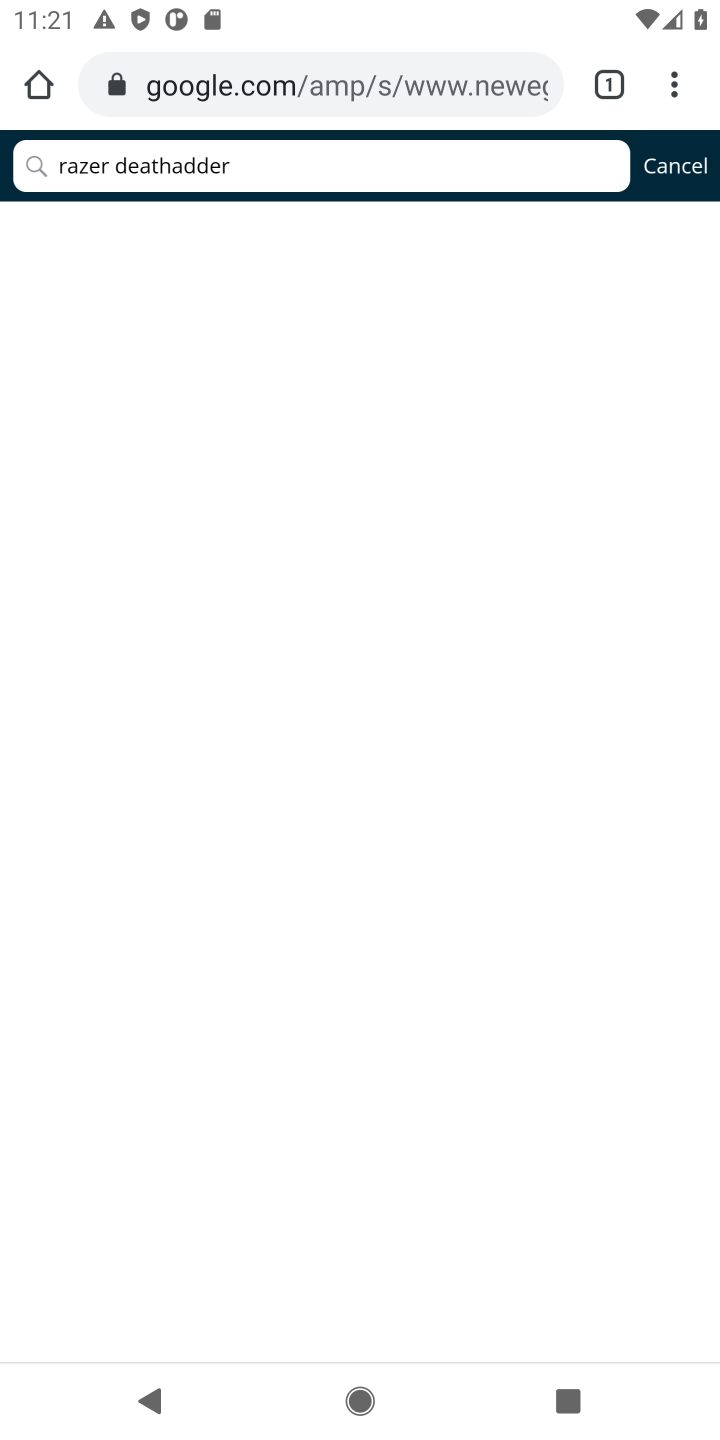
Step 33: click (506, 166)
Your task to perform on an android device: View the shopping cart on newegg. Search for "razer deathadder" on newegg, select the first entry, and add it to the cart. Image 34: 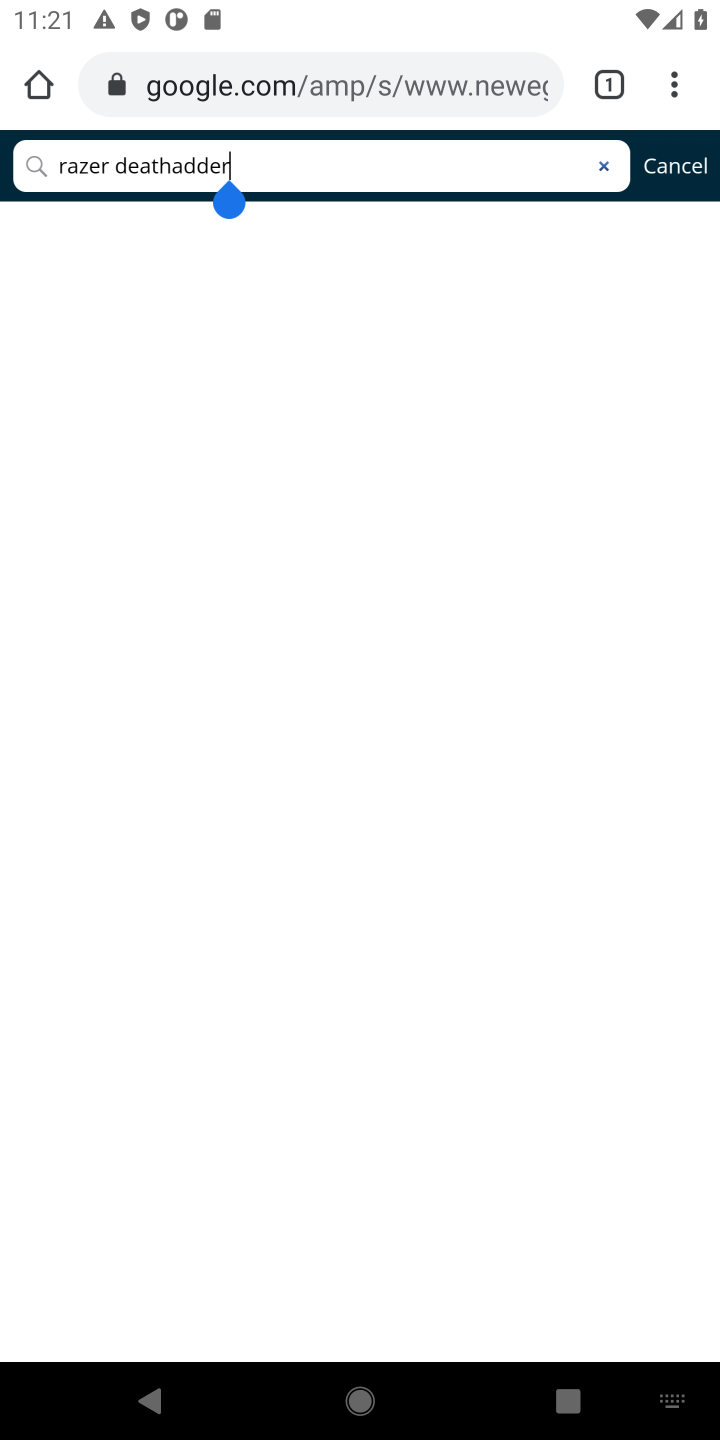
Step 34: click (610, 171)
Your task to perform on an android device: View the shopping cart on newegg. Search for "razer deathadder" on newegg, select the first entry, and add it to the cart. Image 35: 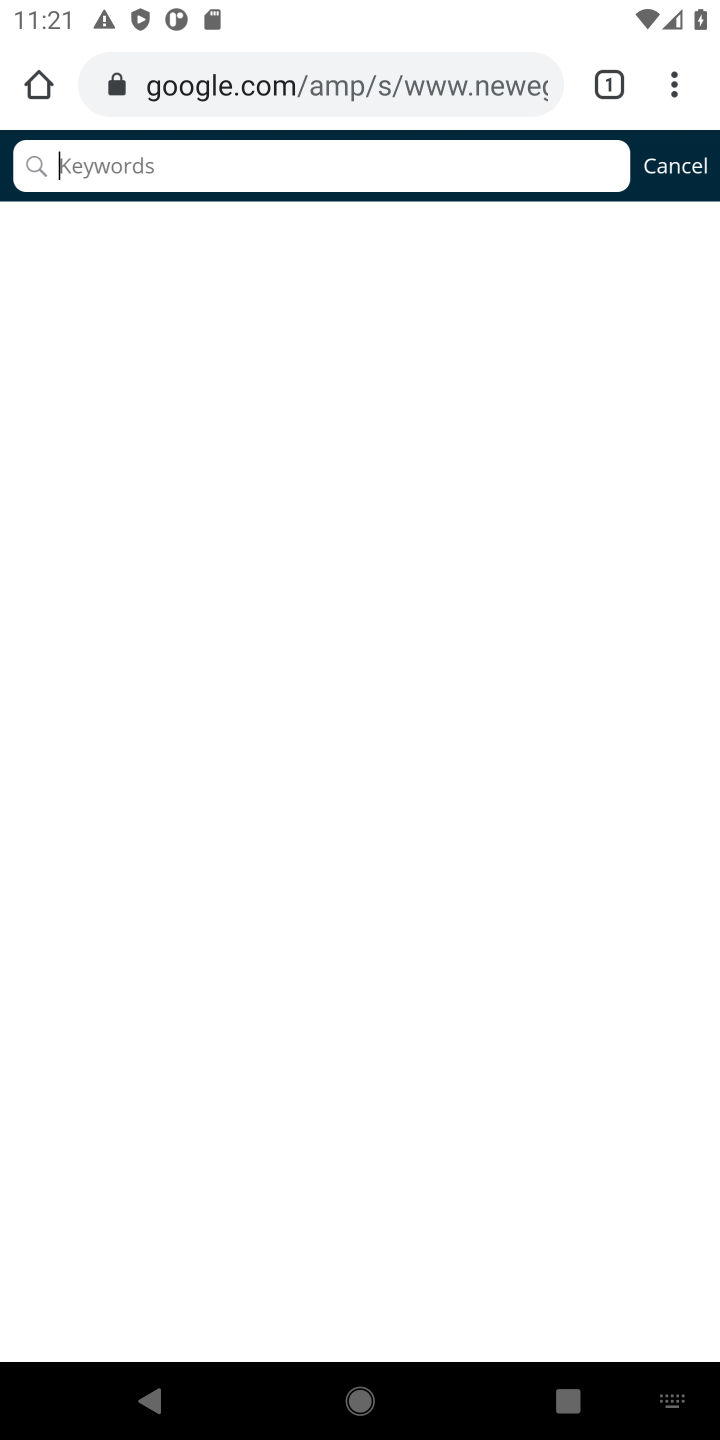
Step 35: press enter
Your task to perform on an android device: View the shopping cart on newegg. Search for "razer deathadder" on newegg, select the first entry, and add it to the cart. Image 36: 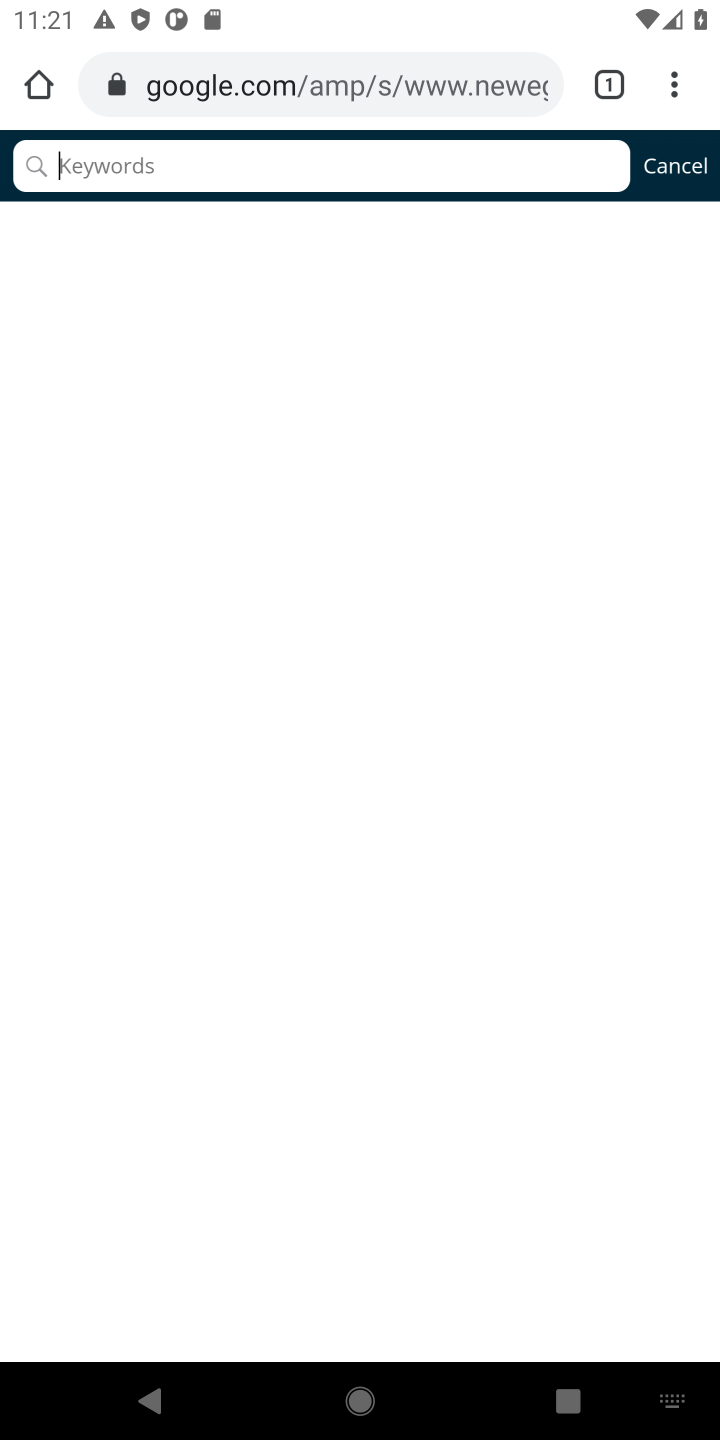
Step 36: type "razer deathadder"
Your task to perform on an android device: View the shopping cart on newegg. Search for "razer deathadder" on newegg, select the first entry, and add it to the cart. Image 37: 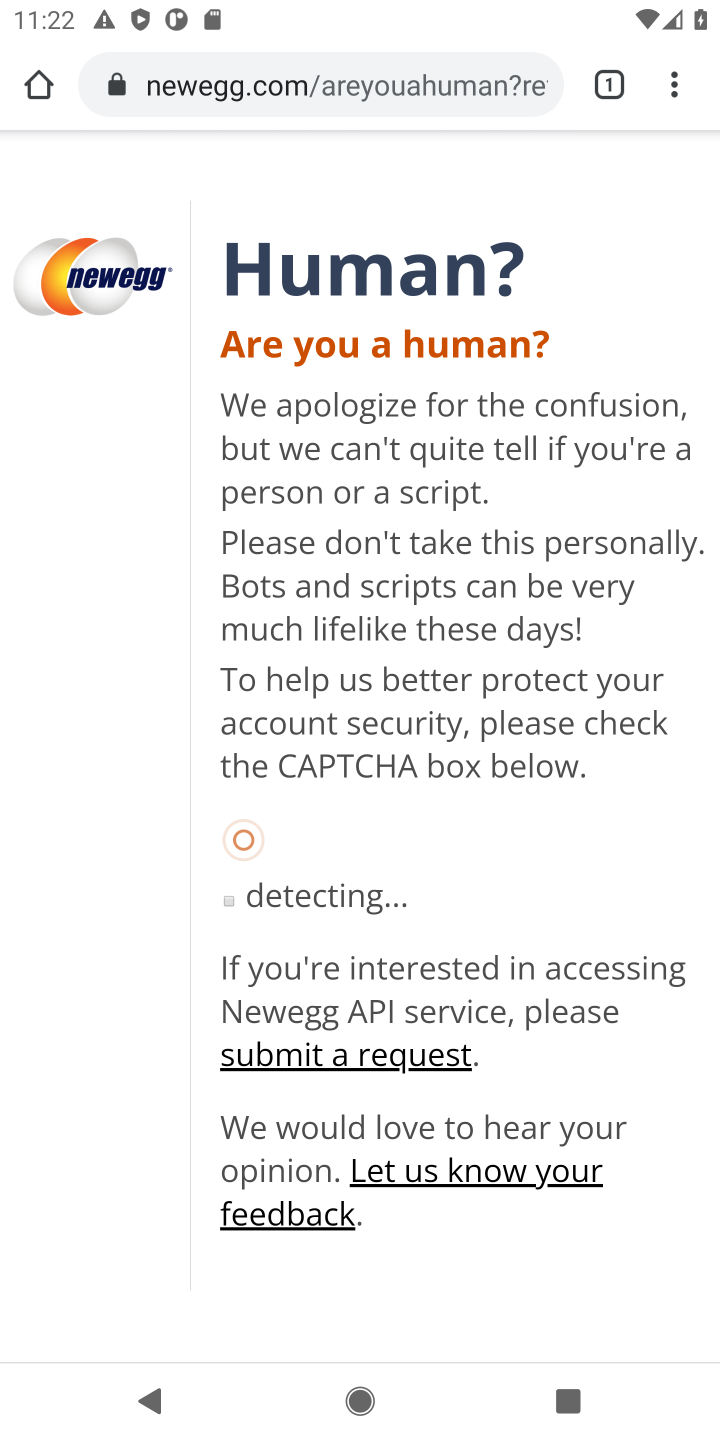
Step 37: task complete